Your task to perform on an android device: Add "jbl charge 4" to the cart on ebay.com, then select checkout. Image 0: 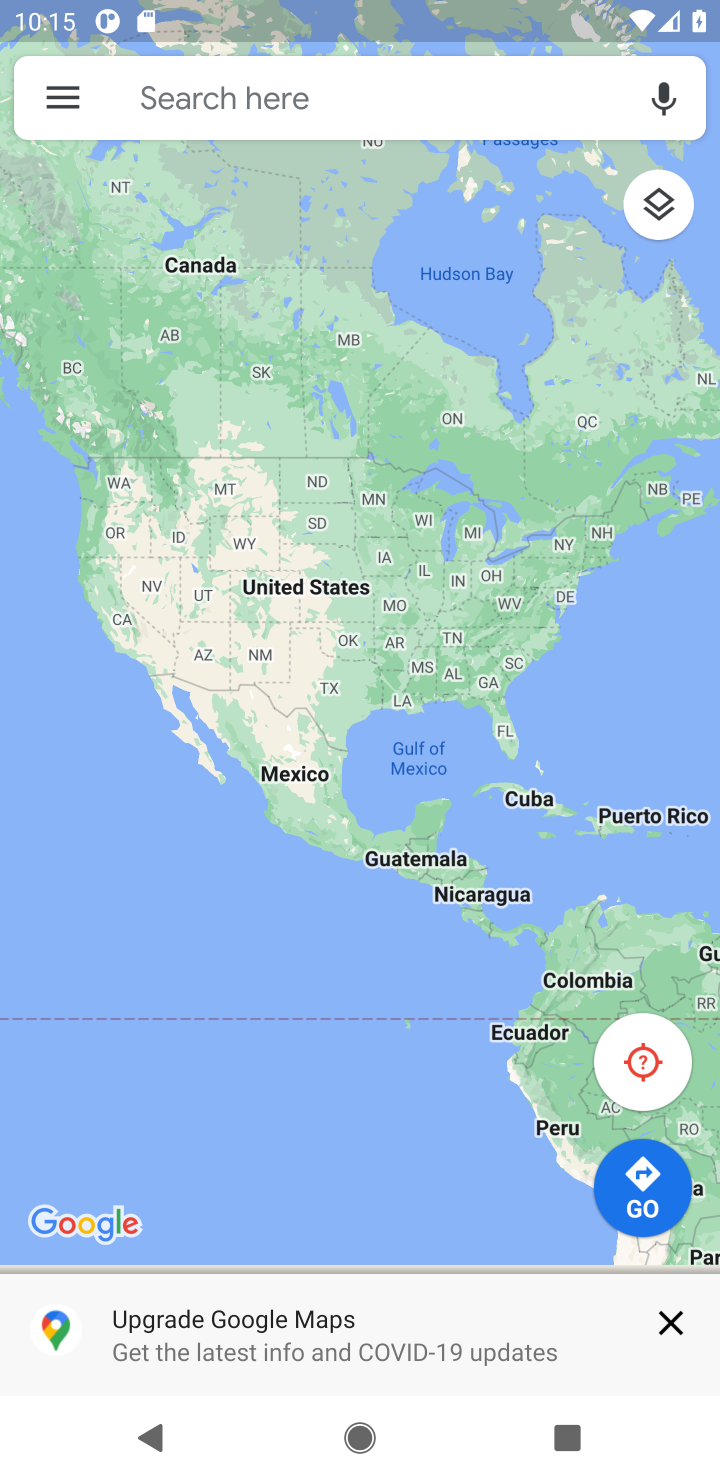
Step 0: press home button
Your task to perform on an android device: Add "jbl charge 4" to the cart on ebay.com, then select checkout. Image 1: 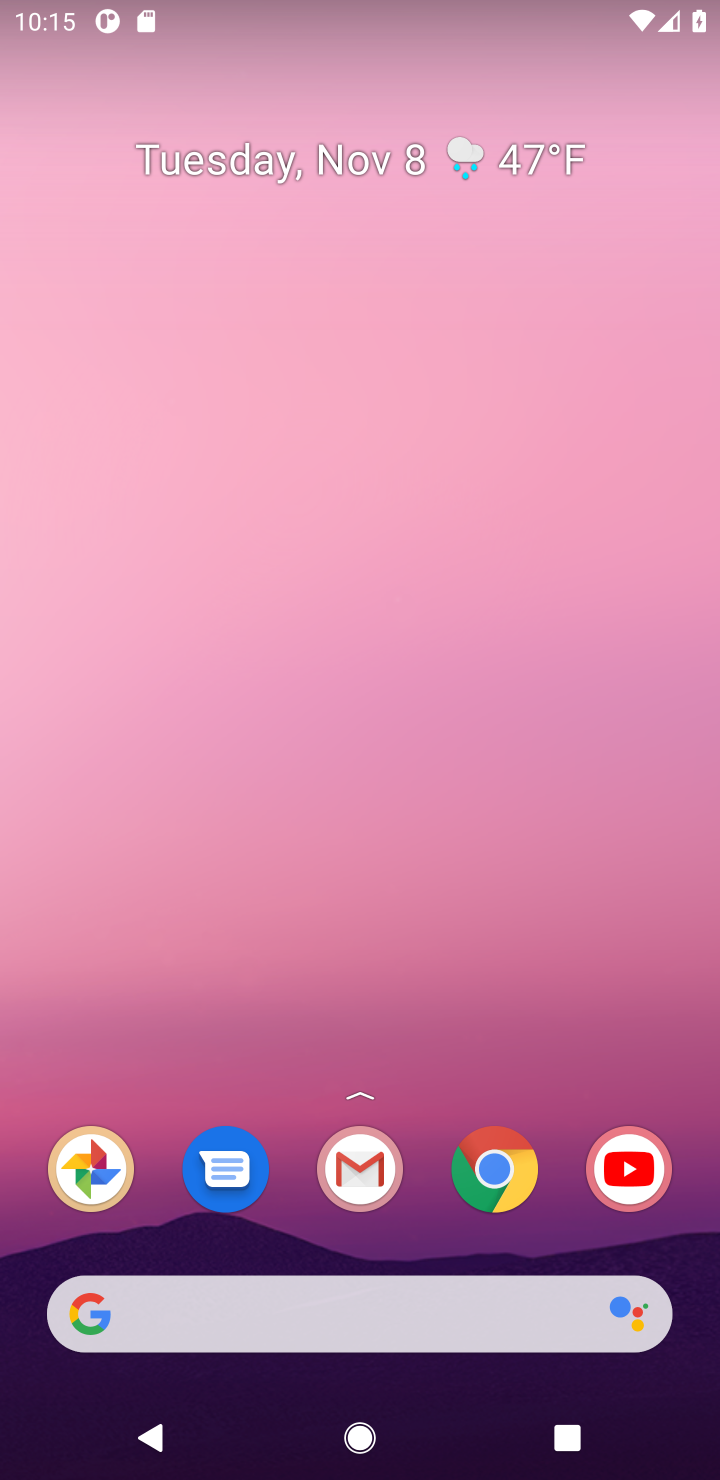
Step 1: click (486, 1164)
Your task to perform on an android device: Add "jbl charge 4" to the cart on ebay.com, then select checkout. Image 2: 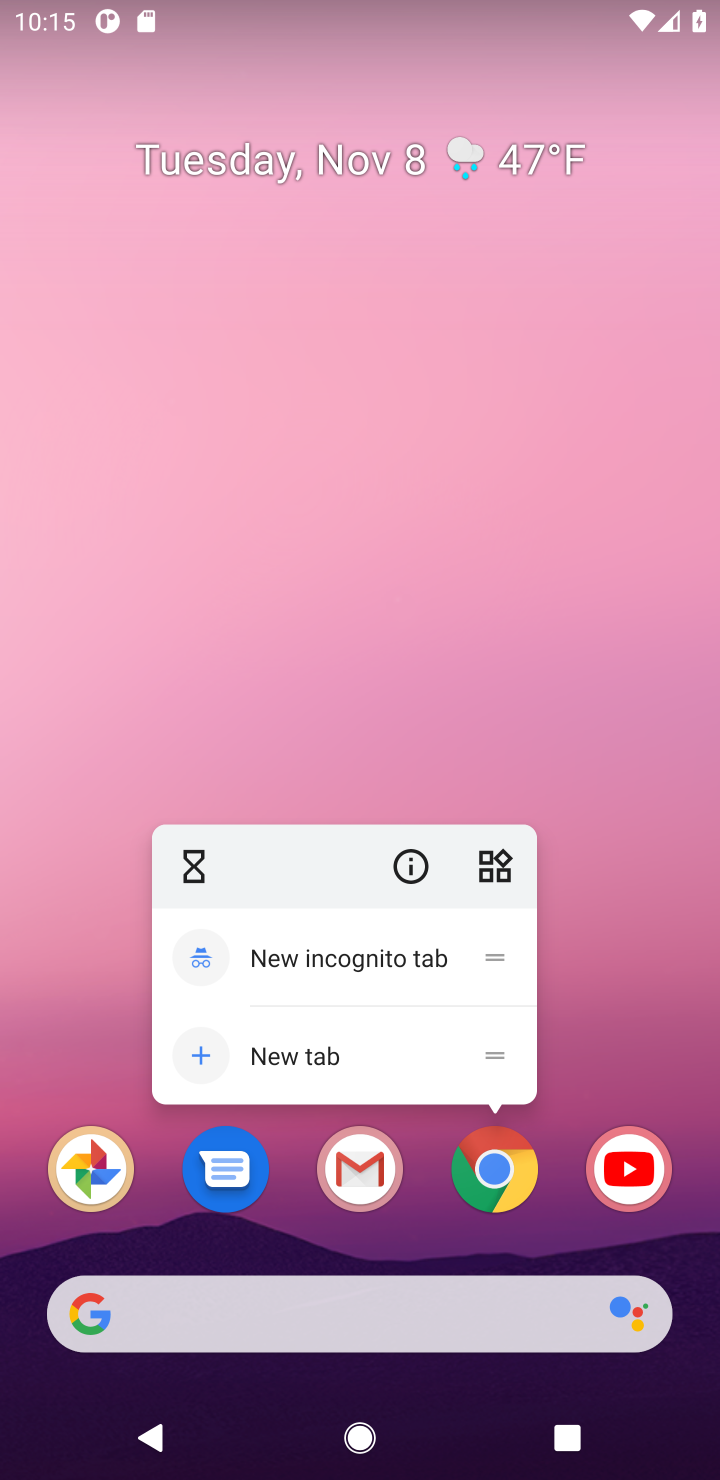
Step 2: click (486, 1164)
Your task to perform on an android device: Add "jbl charge 4" to the cart on ebay.com, then select checkout. Image 3: 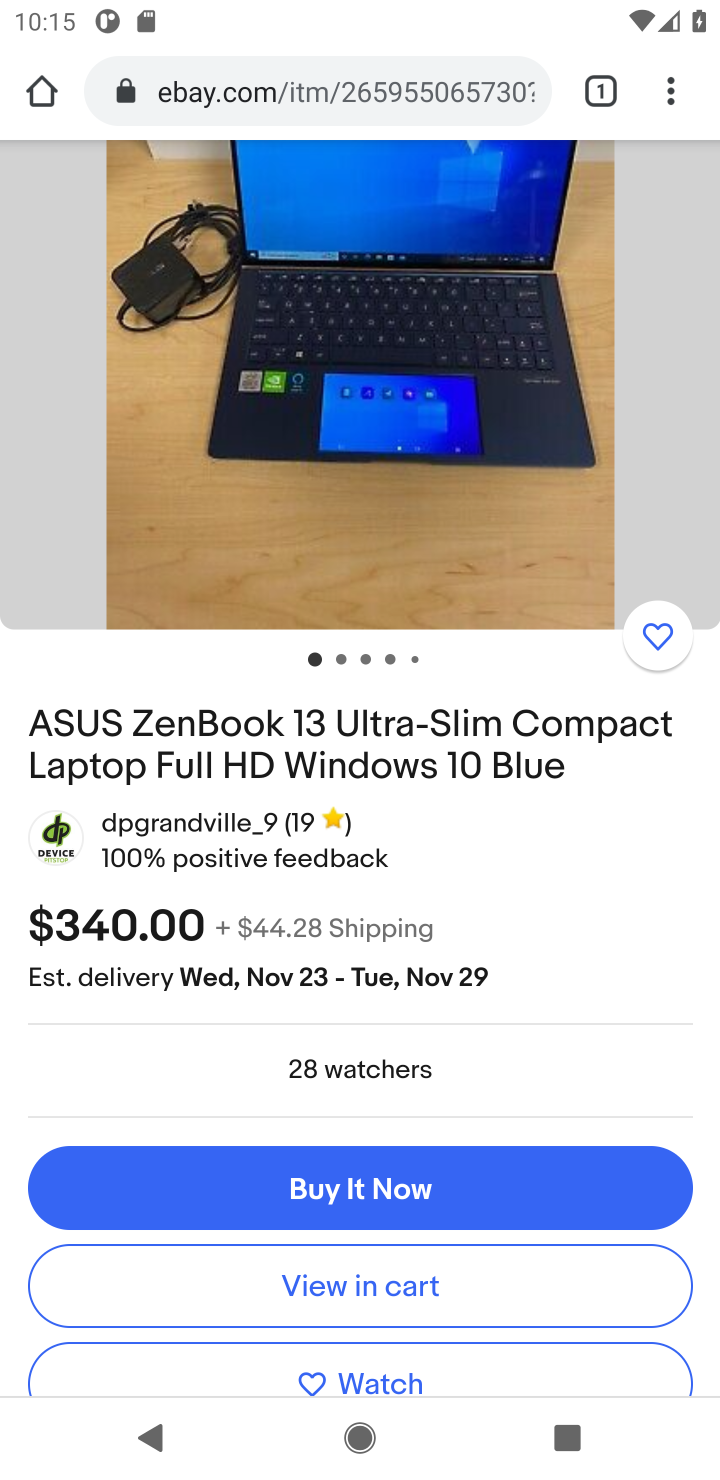
Step 3: drag from (371, 294) to (485, 1113)
Your task to perform on an android device: Add "jbl charge 4" to the cart on ebay.com, then select checkout. Image 4: 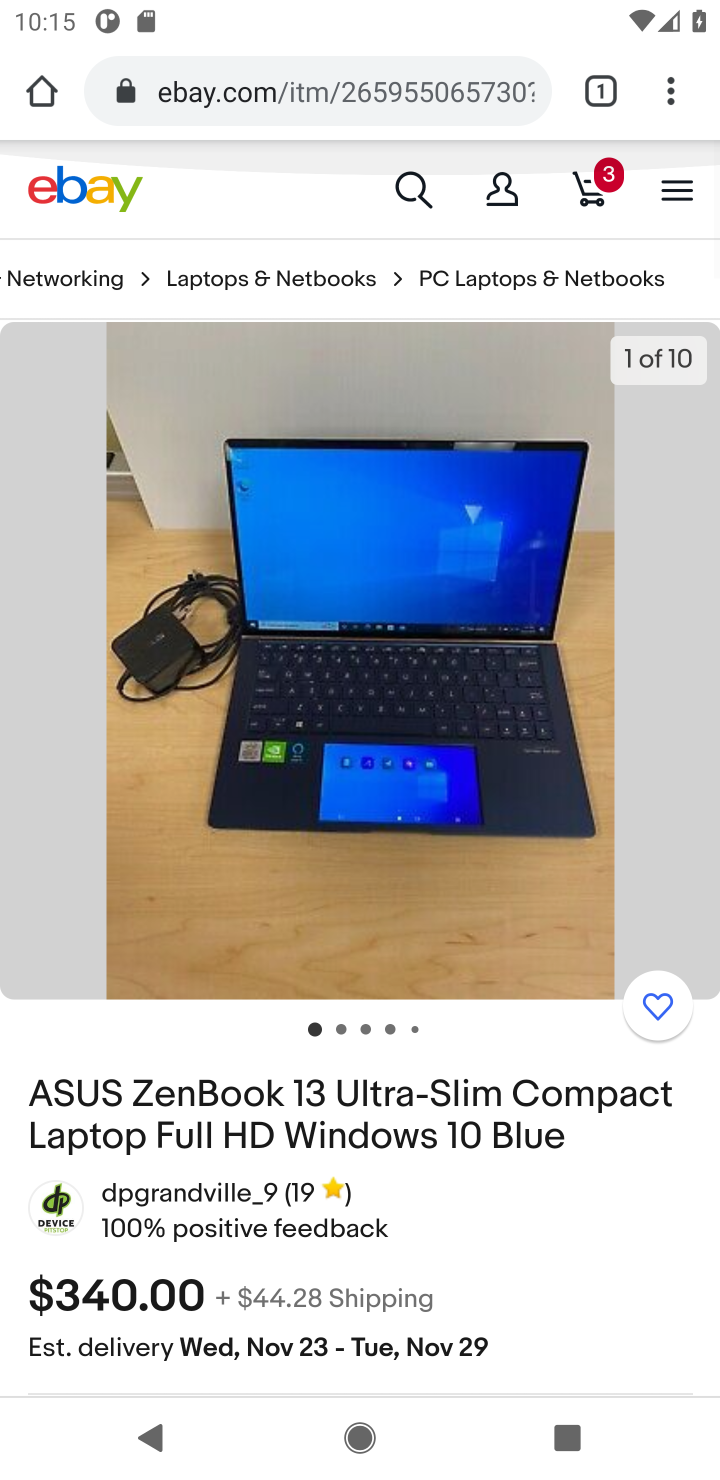
Step 4: press back button
Your task to perform on an android device: Add "jbl charge 4" to the cart on ebay.com, then select checkout. Image 5: 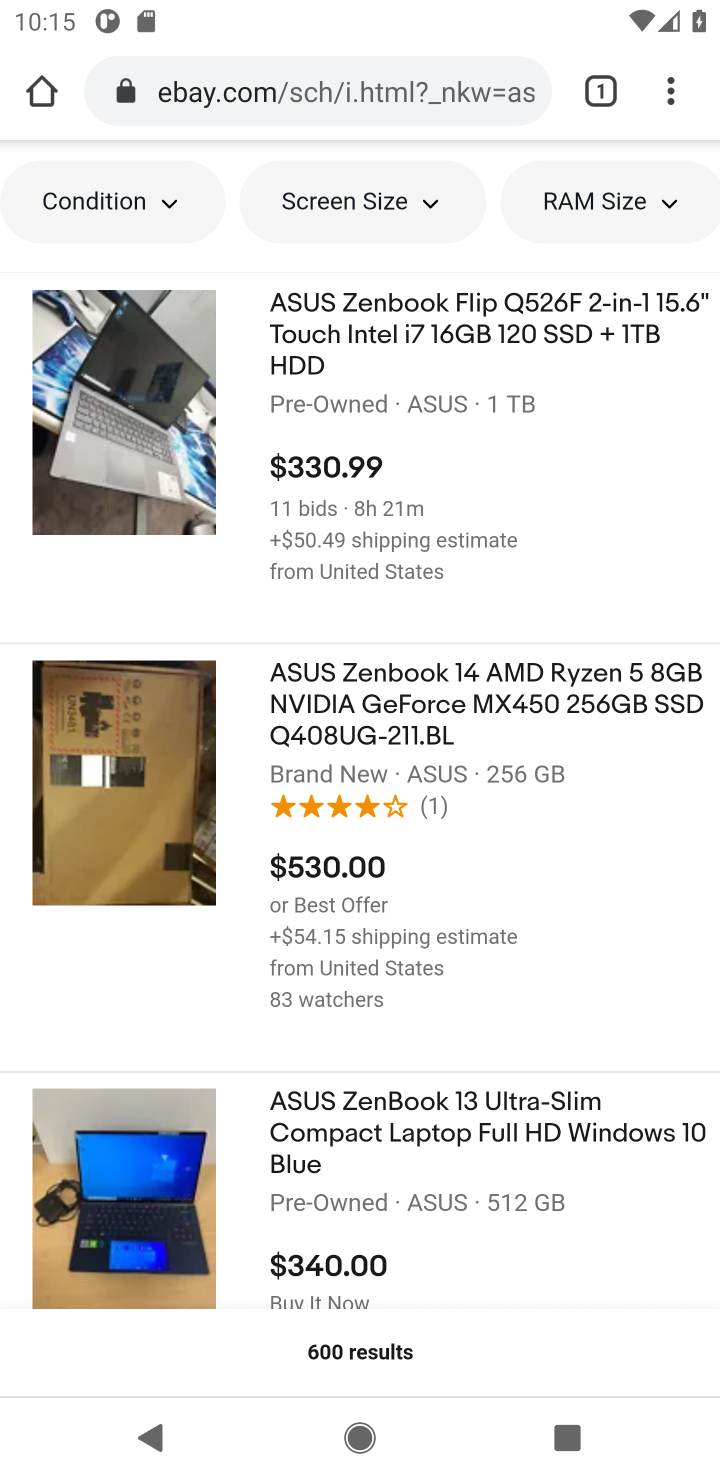
Step 5: drag from (414, 377) to (703, 1041)
Your task to perform on an android device: Add "jbl charge 4" to the cart on ebay.com, then select checkout. Image 6: 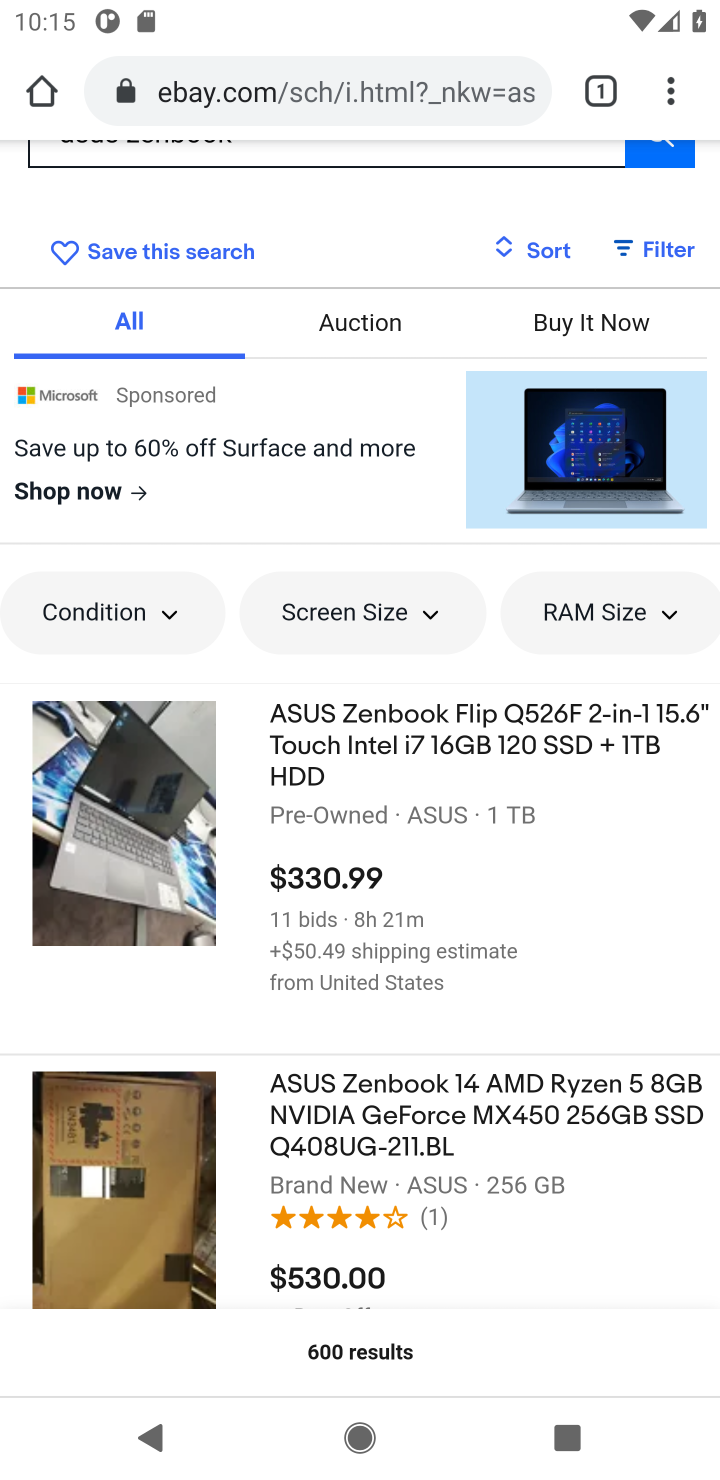
Step 6: drag from (518, 416) to (692, 1387)
Your task to perform on an android device: Add "jbl charge 4" to the cart on ebay.com, then select checkout. Image 7: 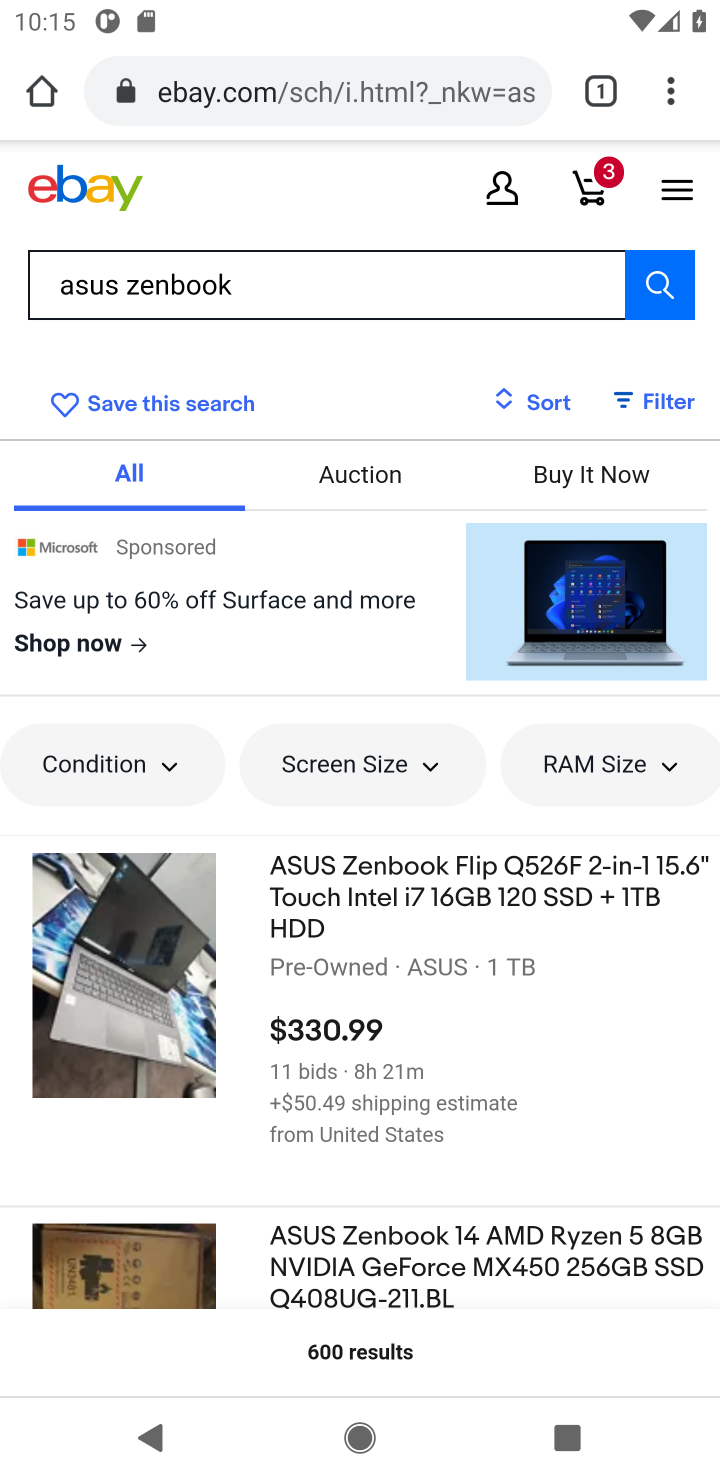
Step 7: click (390, 292)
Your task to perform on an android device: Add "jbl charge 4" to the cart on ebay.com, then select checkout. Image 8: 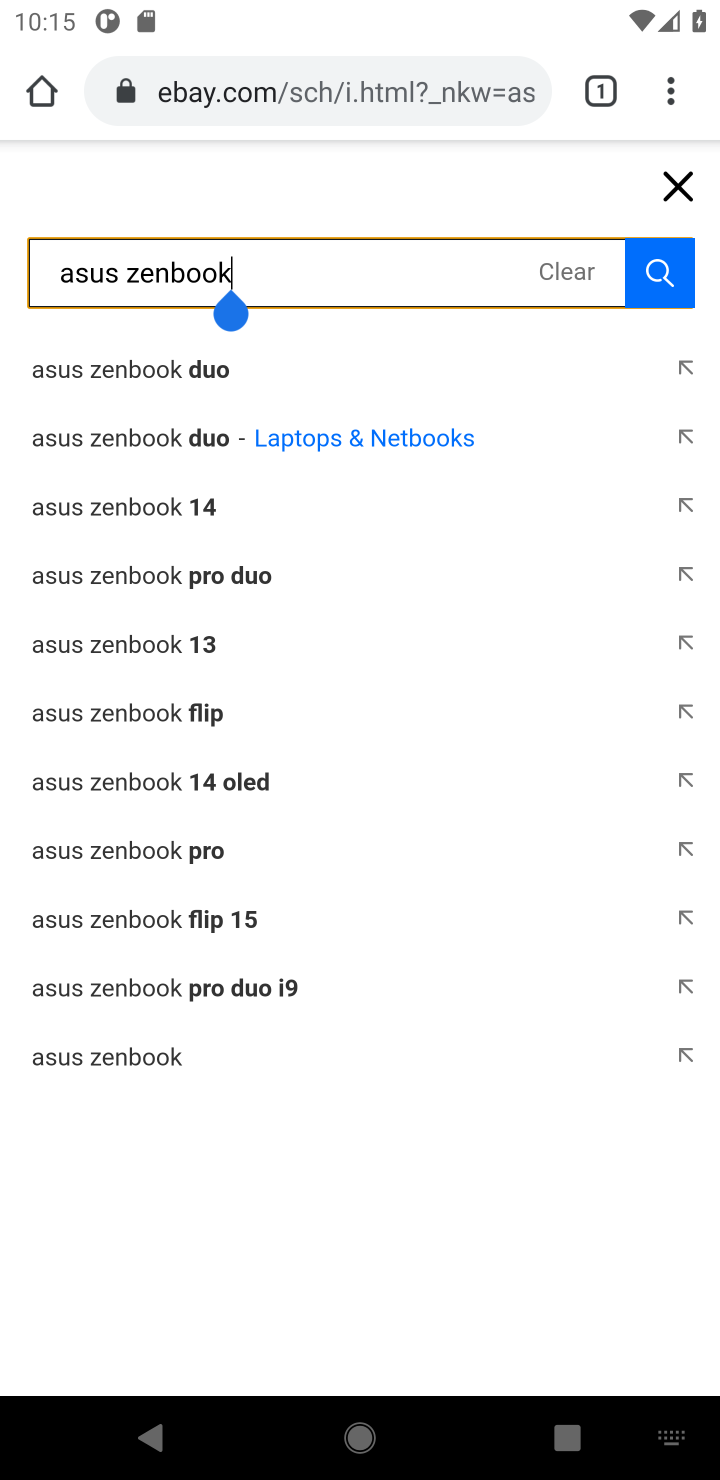
Step 8: click (576, 270)
Your task to perform on an android device: Add "jbl charge 4" to the cart on ebay.com, then select checkout. Image 9: 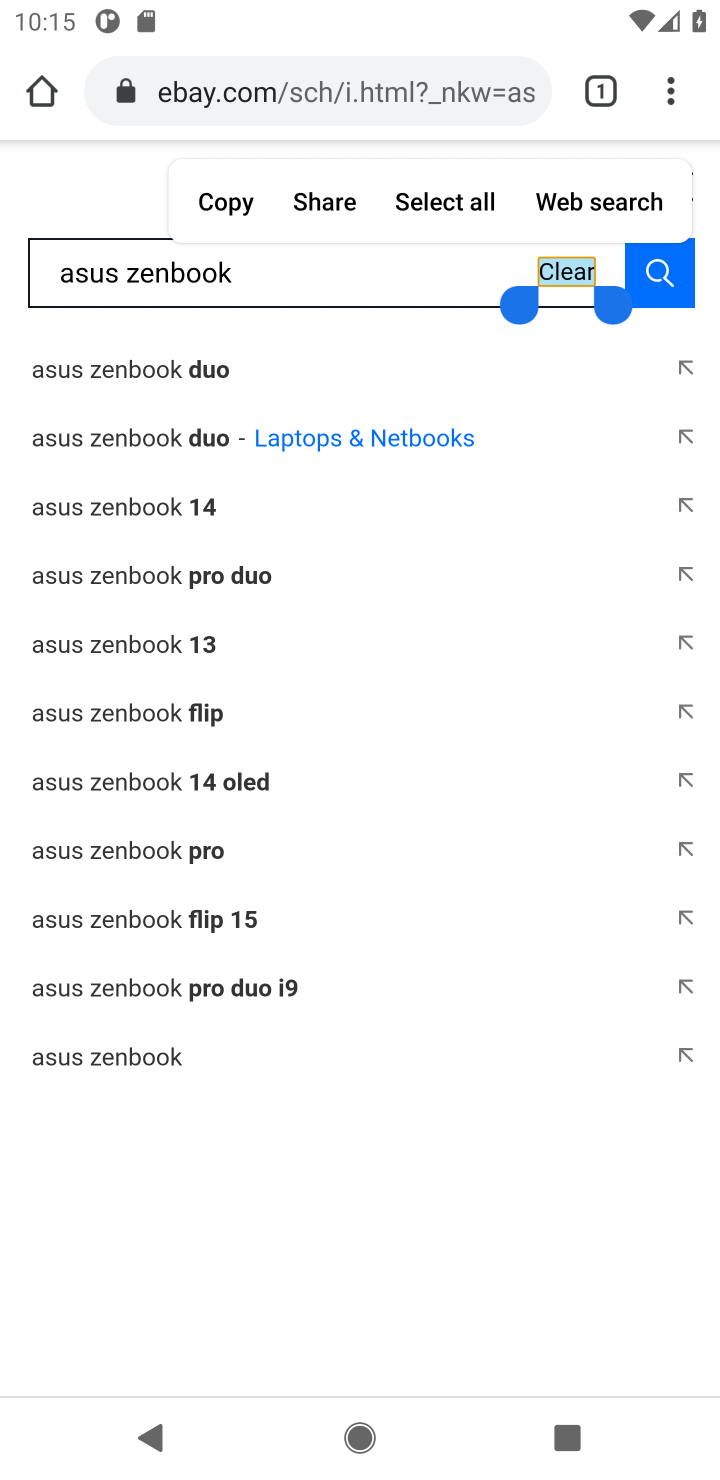
Step 9: click (320, 276)
Your task to perform on an android device: Add "jbl charge 4" to the cart on ebay.com, then select checkout. Image 10: 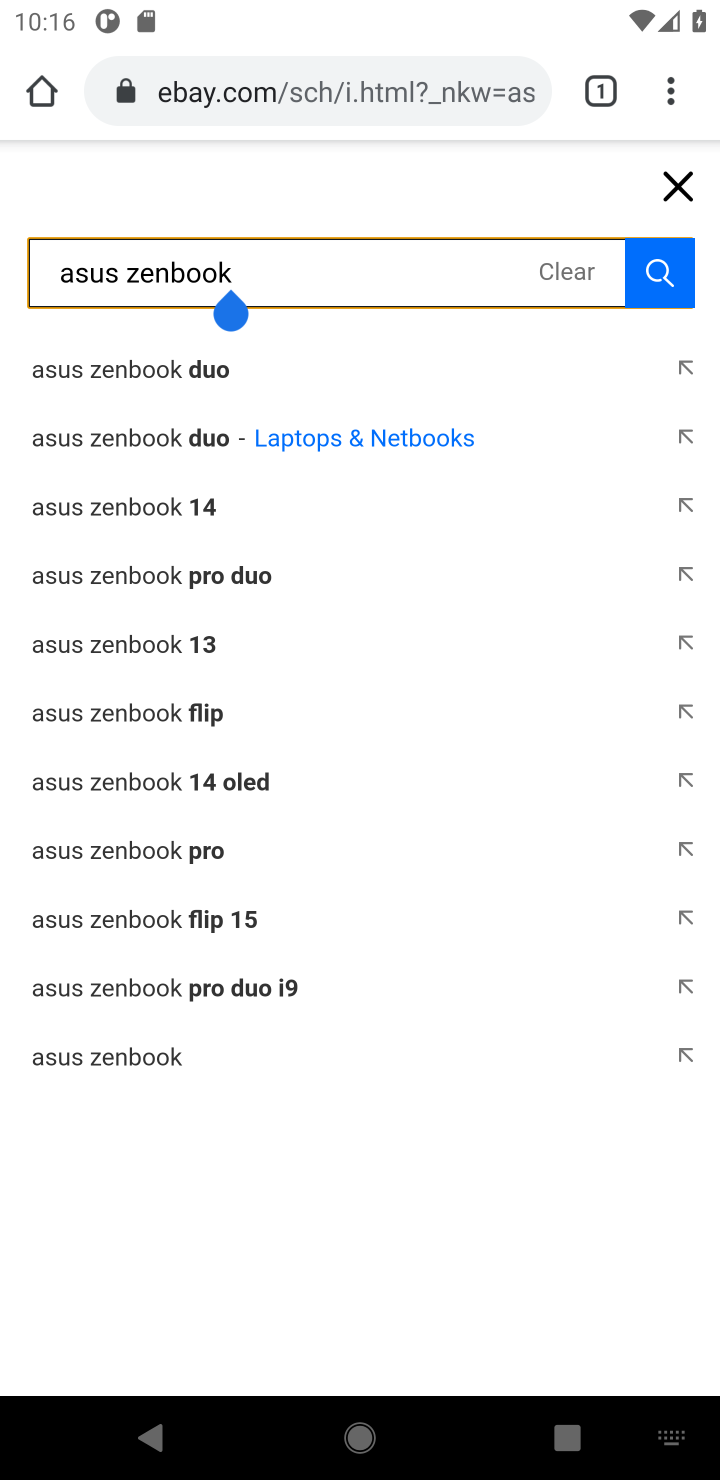
Step 10: click (696, 183)
Your task to perform on an android device: Add "jbl charge 4" to the cart on ebay.com, then select checkout. Image 11: 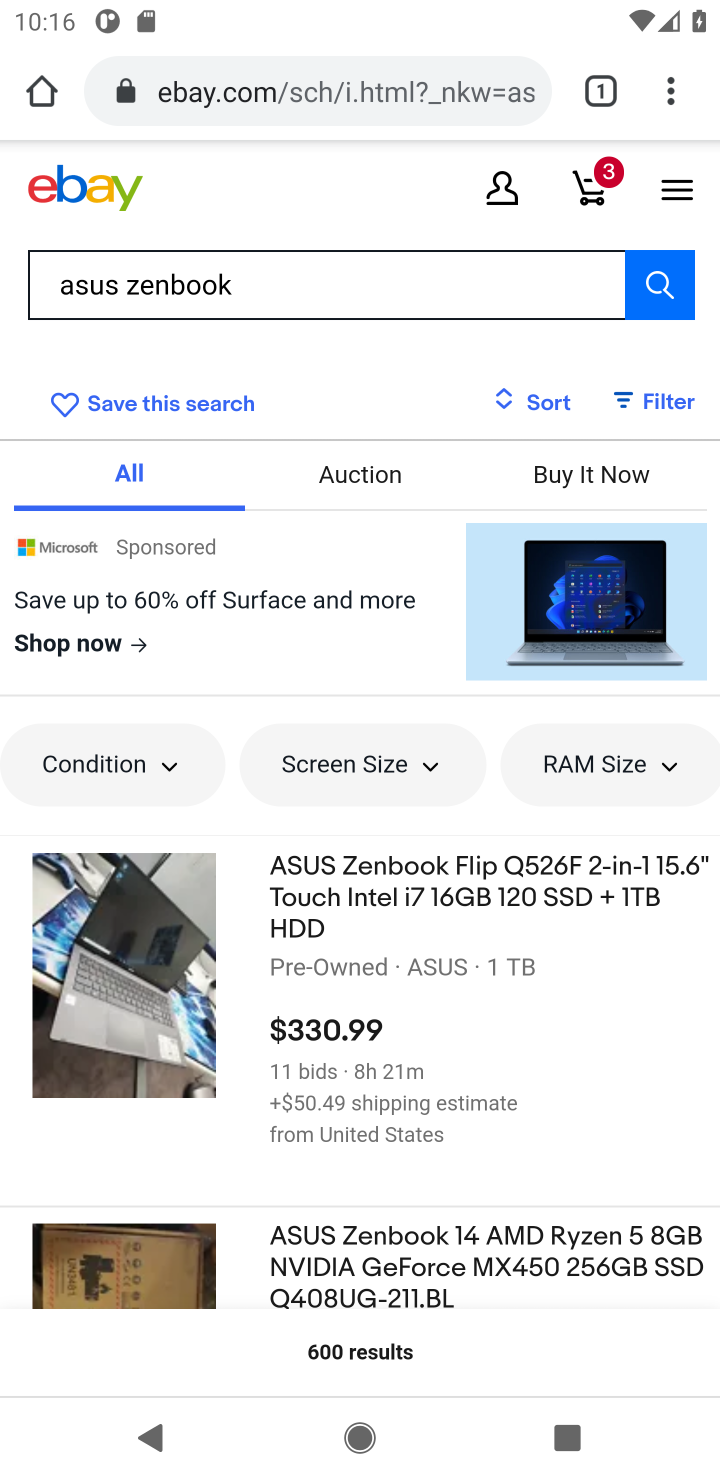
Step 11: click (452, 258)
Your task to perform on an android device: Add "jbl charge 4" to the cart on ebay.com, then select checkout. Image 12: 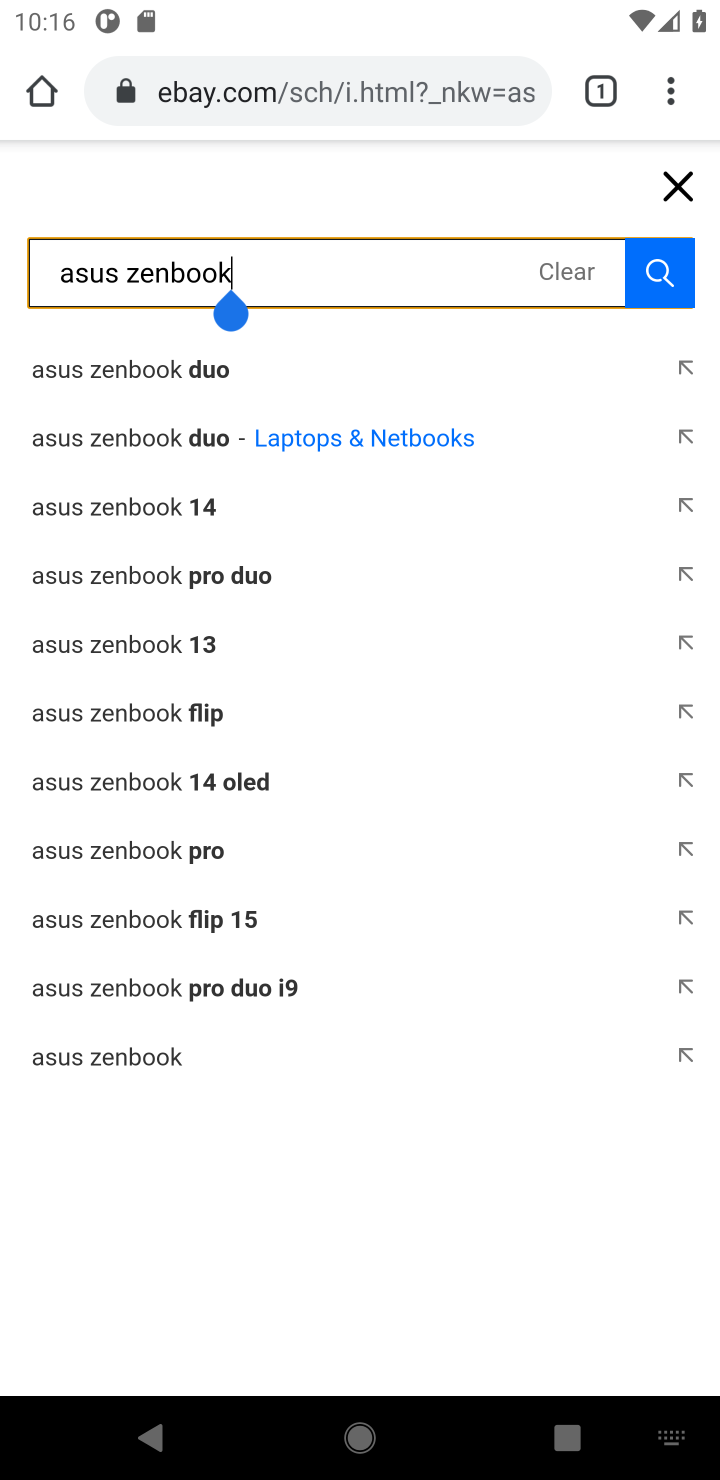
Step 12: click (151, 276)
Your task to perform on an android device: Add "jbl charge 4" to the cart on ebay.com, then select checkout. Image 13: 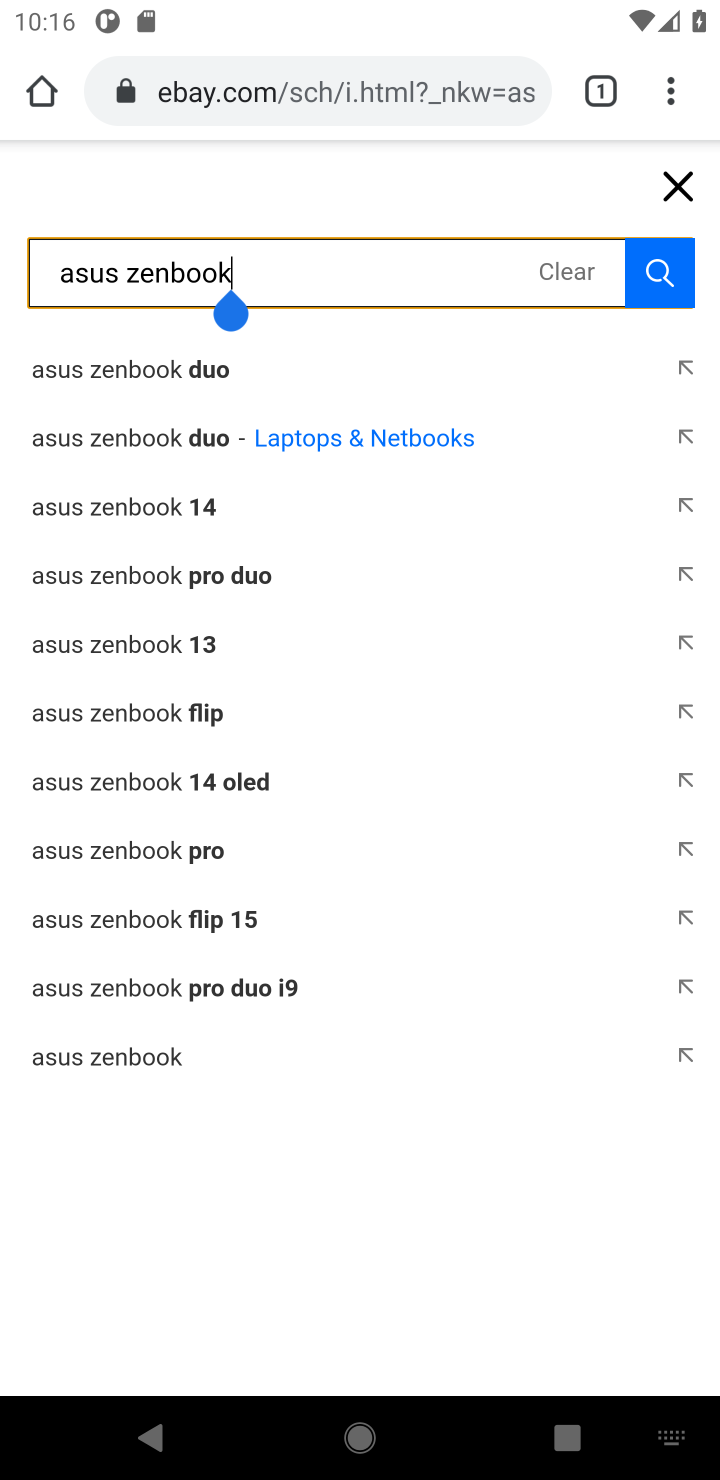
Step 13: click (151, 276)
Your task to perform on an android device: Add "jbl charge 4" to the cart on ebay.com, then select checkout. Image 14: 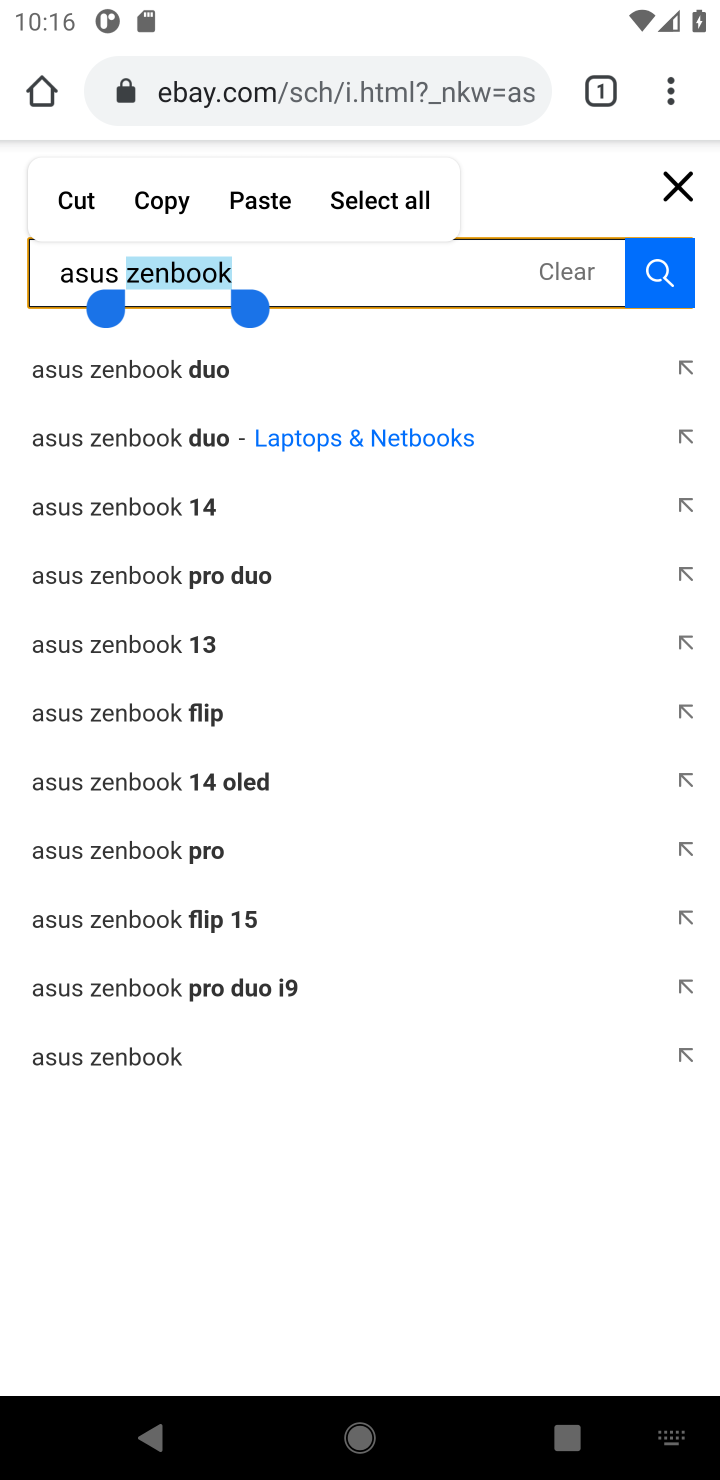
Step 14: click (674, 179)
Your task to perform on an android device: Add "jbl charge 4" to the cart on ebay.com, then select checkout. Image 15: 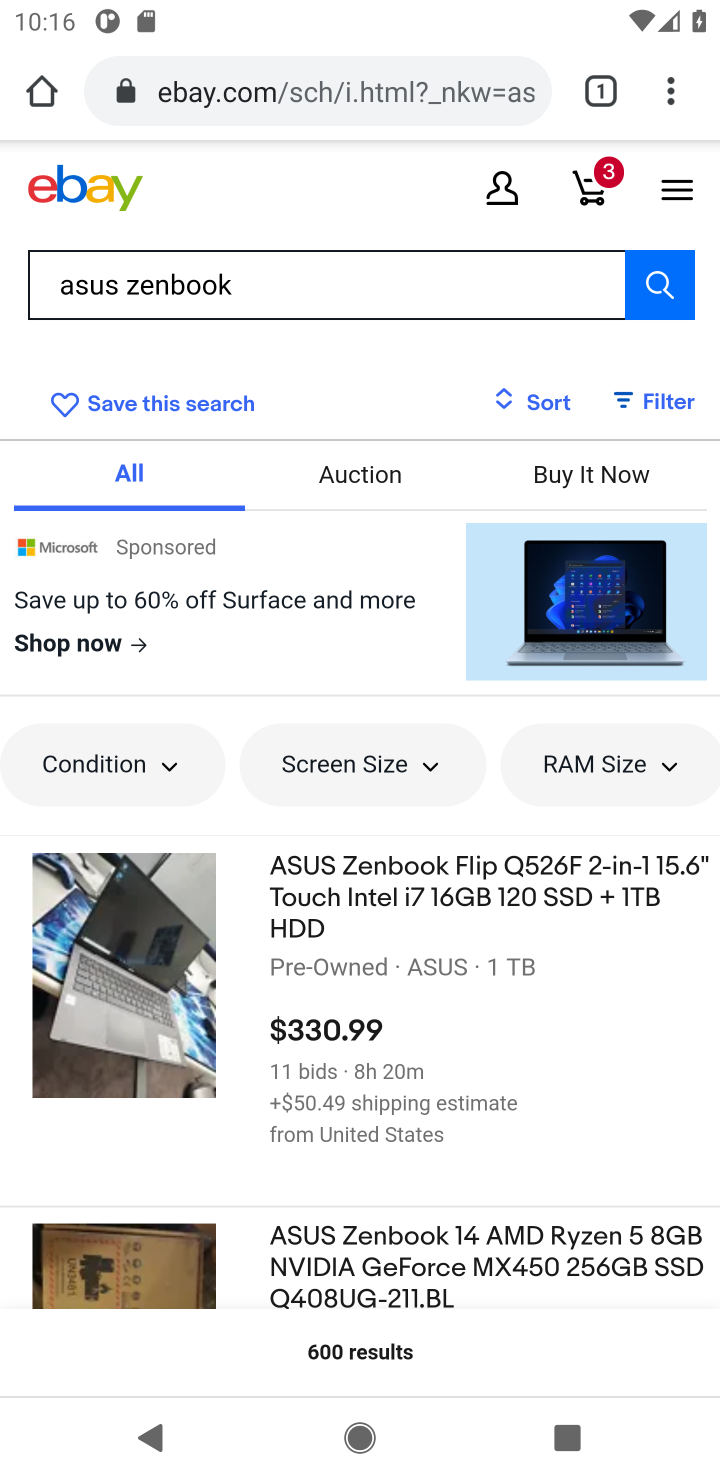
Step 15: press home button
Your task to perform on an android device: Add "jbl charge 4" to the cart on ebay.com, then select checkout. Image 16: 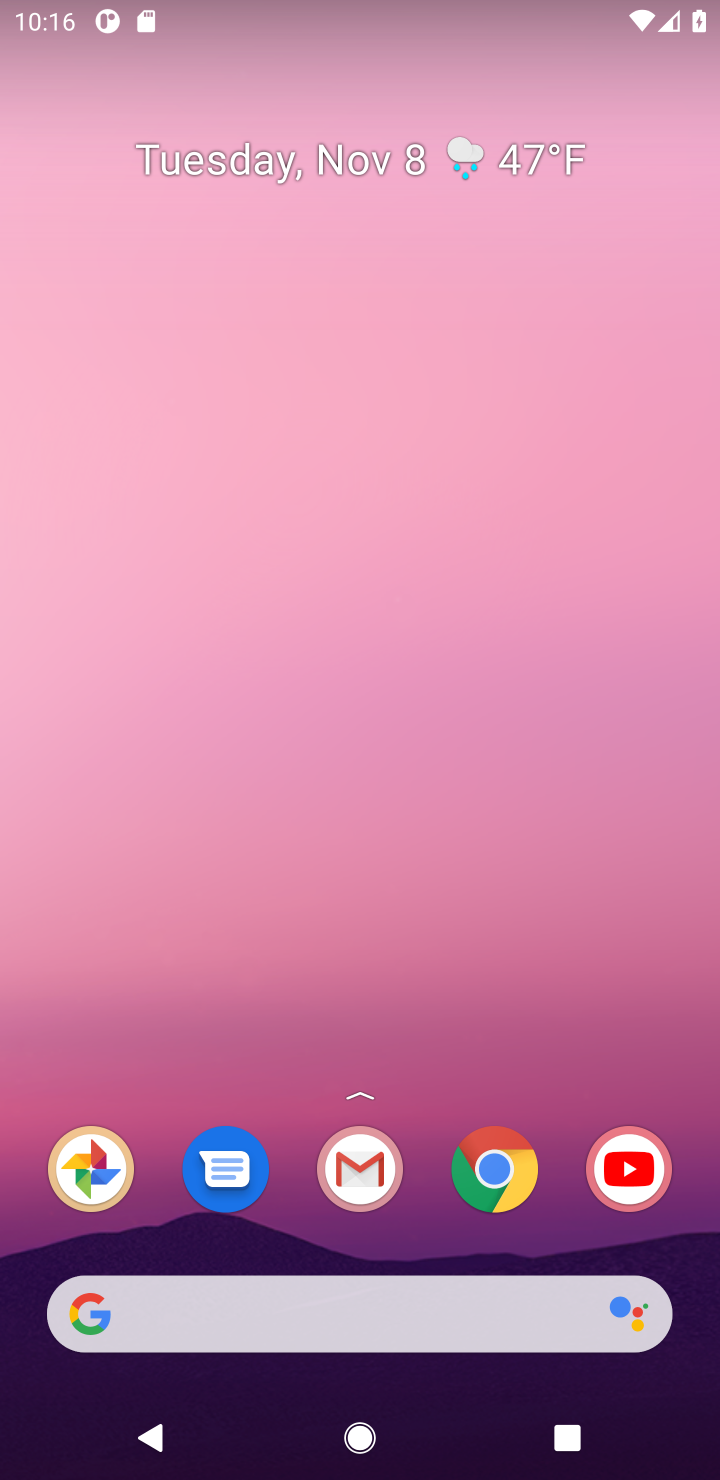
Step 16: click (495, 1141)
Your task to perform on an android device: Add "jbl charge 4" to the cart on ebay.com, then select checkout. Image 17: 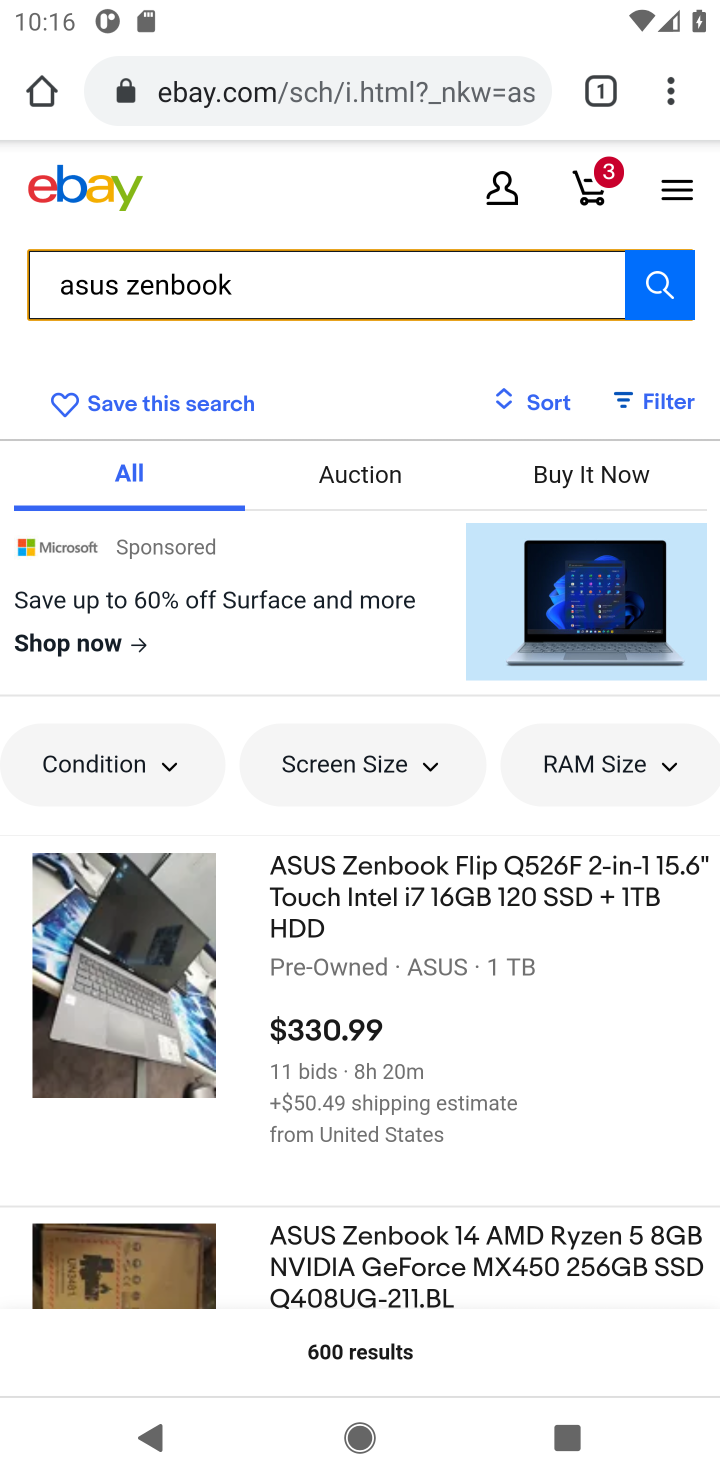
Step 17: click (92, 290)
Your task to perform on an android device: Add "jbl charge 4" to the cart on ebay.com, then select checkout. Image 18: 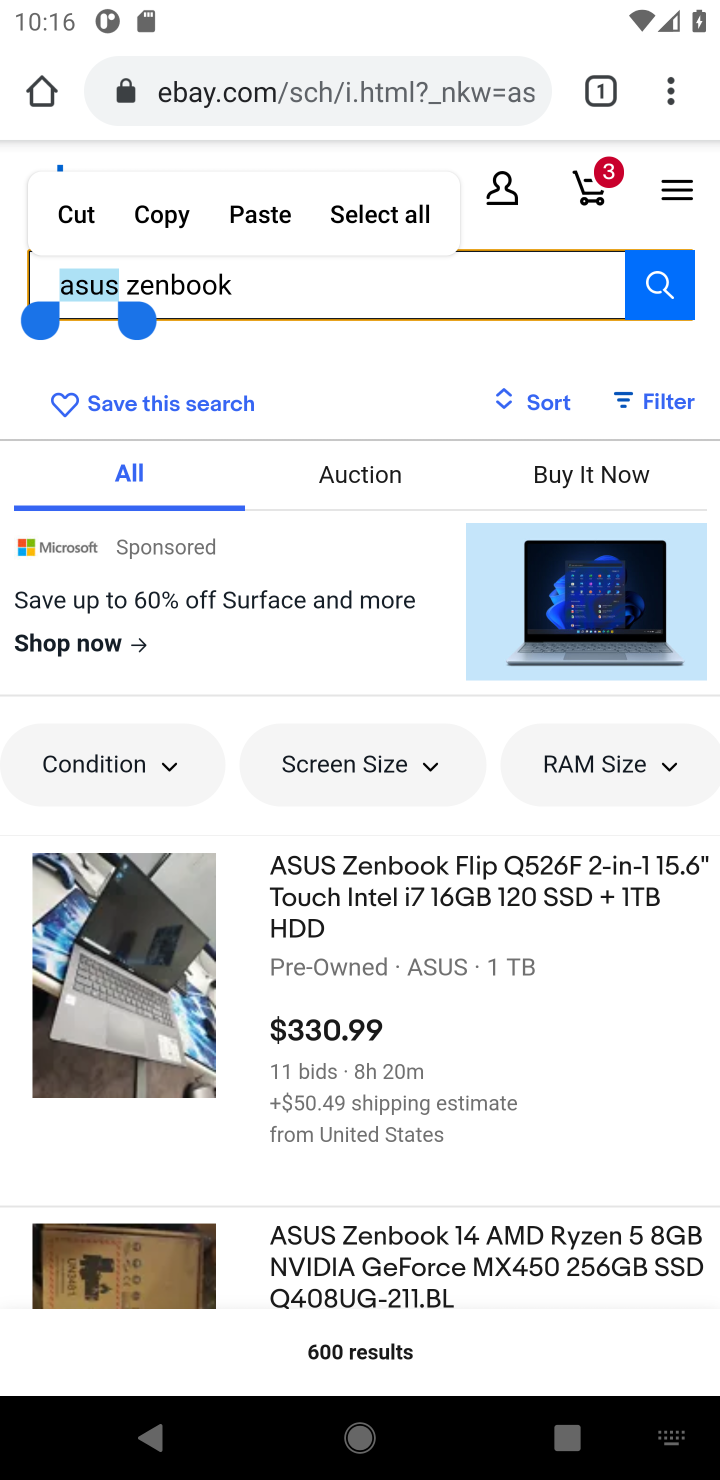
Step 18: drag from (228, 289) to (47, 289)
Your task to perform on an android device: Add "jbl charge 4" to the cart on ebay.com, then select checkout. Image 19: 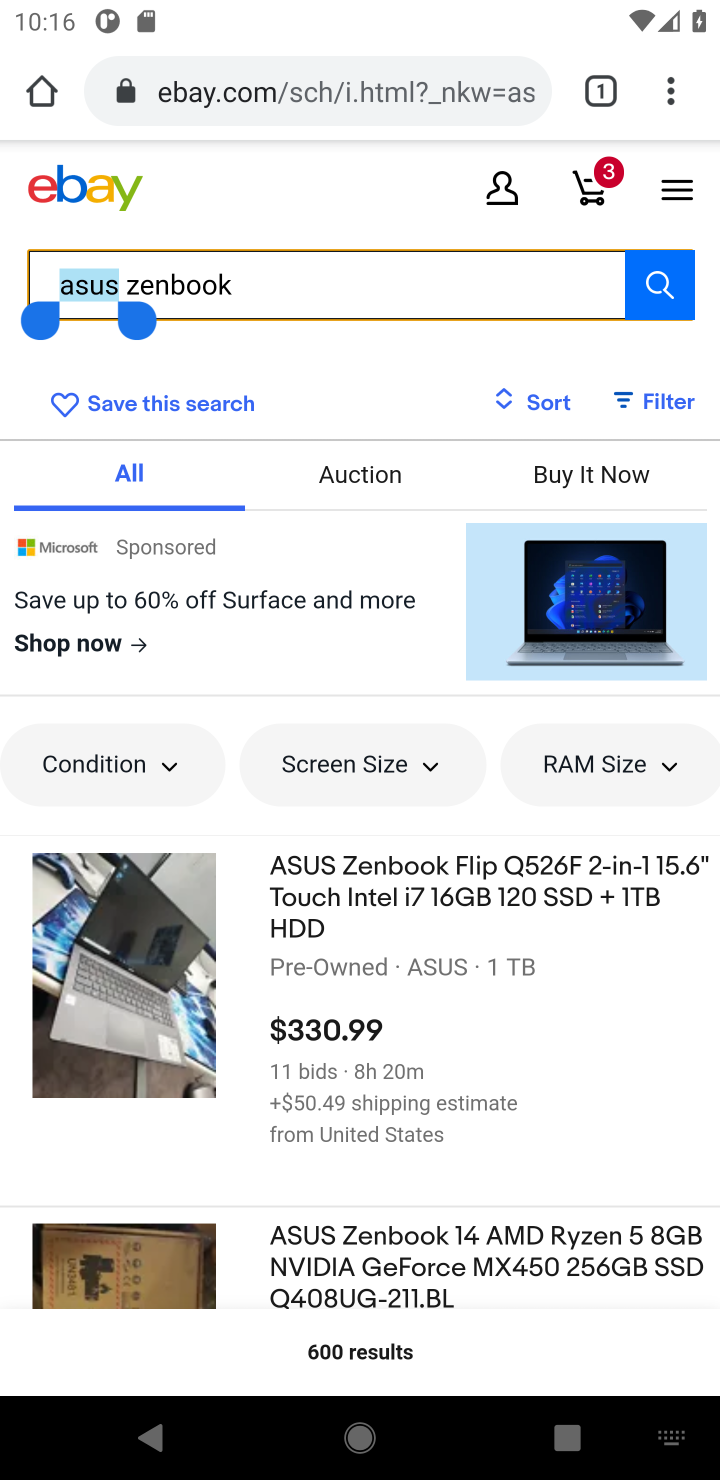
Step 19: click (177, 281)
Your task to perform on an android device: Add "jbl charge 4" to the cart on ebay.com, then select checkout. Image 20: 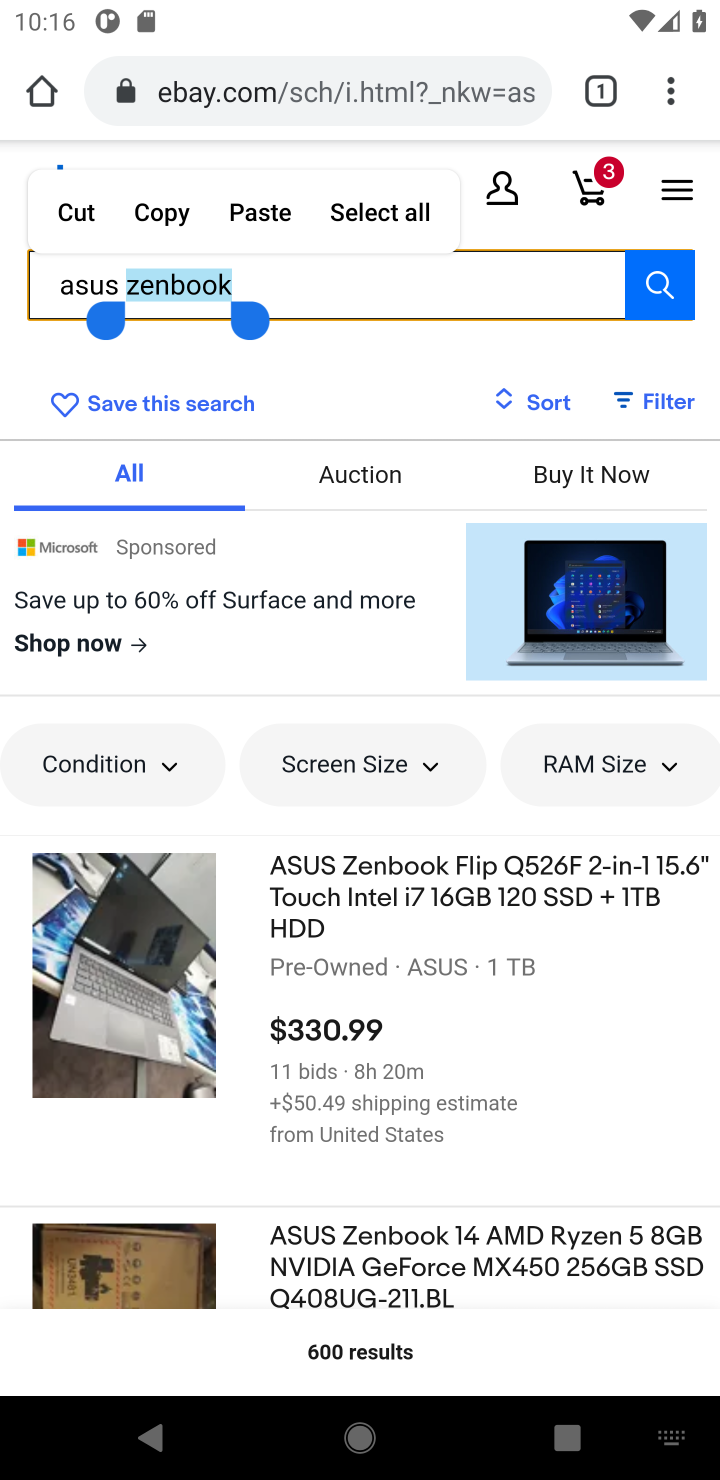
Step 20: drag from (56, 278) to (235, 284)
Your task to perform on an android device: Add "jbl charge 4" to the cart on ebay.com, then select checkout. Image 21: 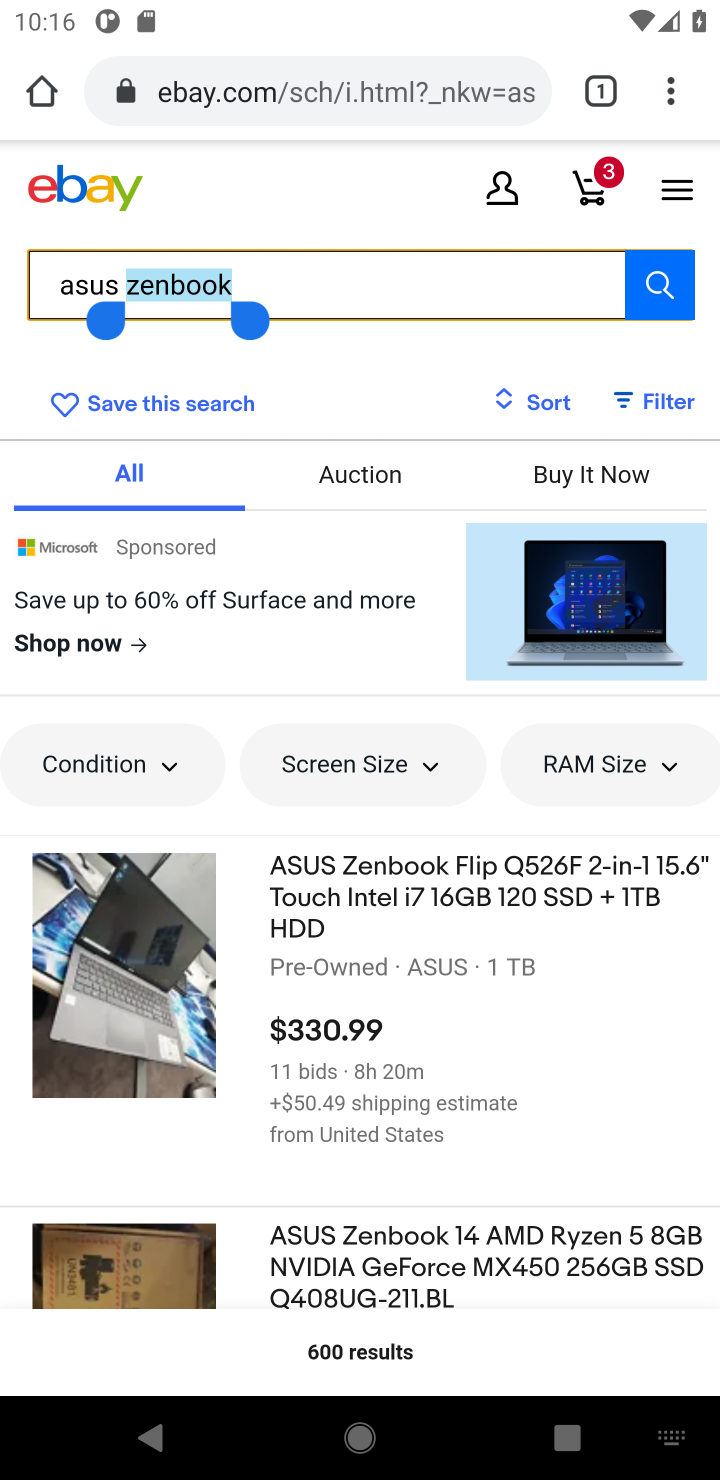
Step 21: click (276, 283)
Your task to perform on an android device: Add "jbl charge 4" to the cart on ebay.com, then select checkout. Image 22: 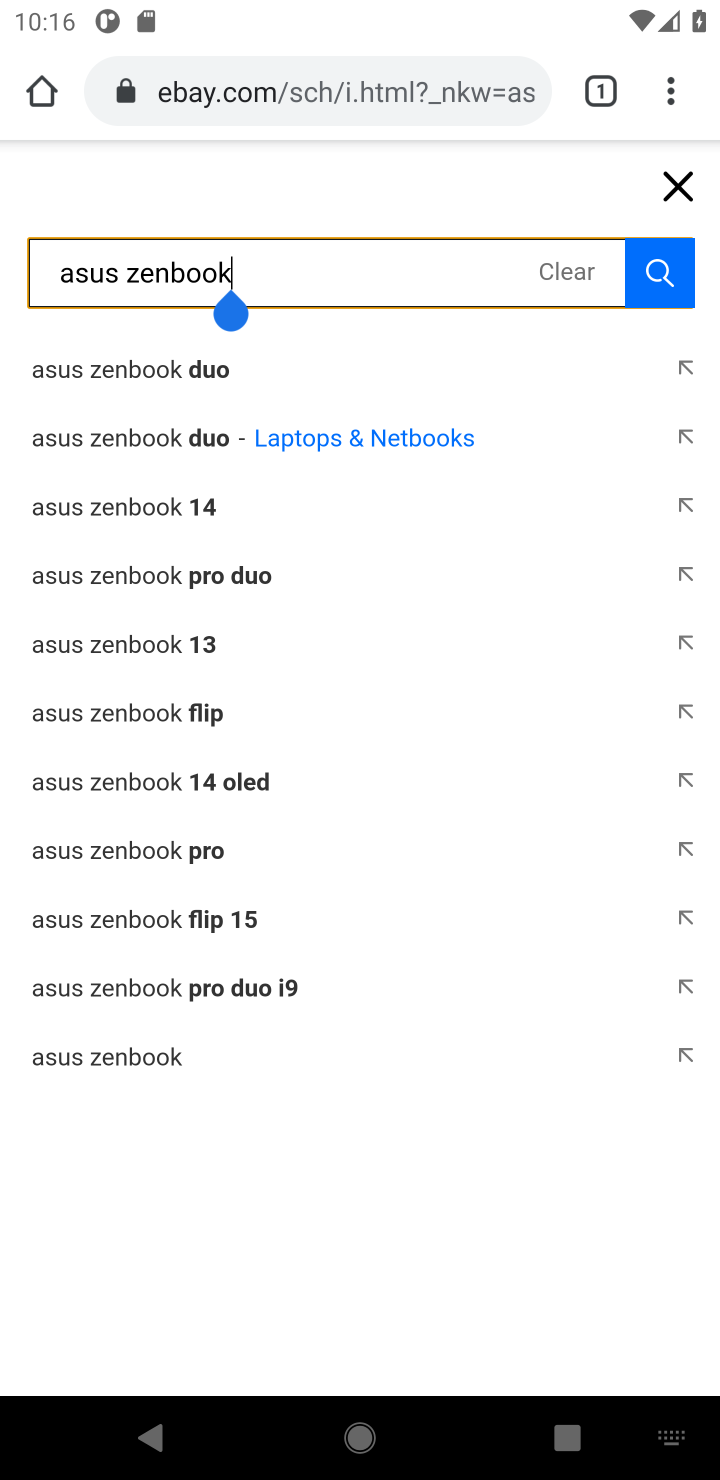
Step 22: drag from (66, 277) to (193, 281)
Your task to perform on an android device: Add "jbl charge 4" to the cart on ebay.com, then select checkout. Image 23: 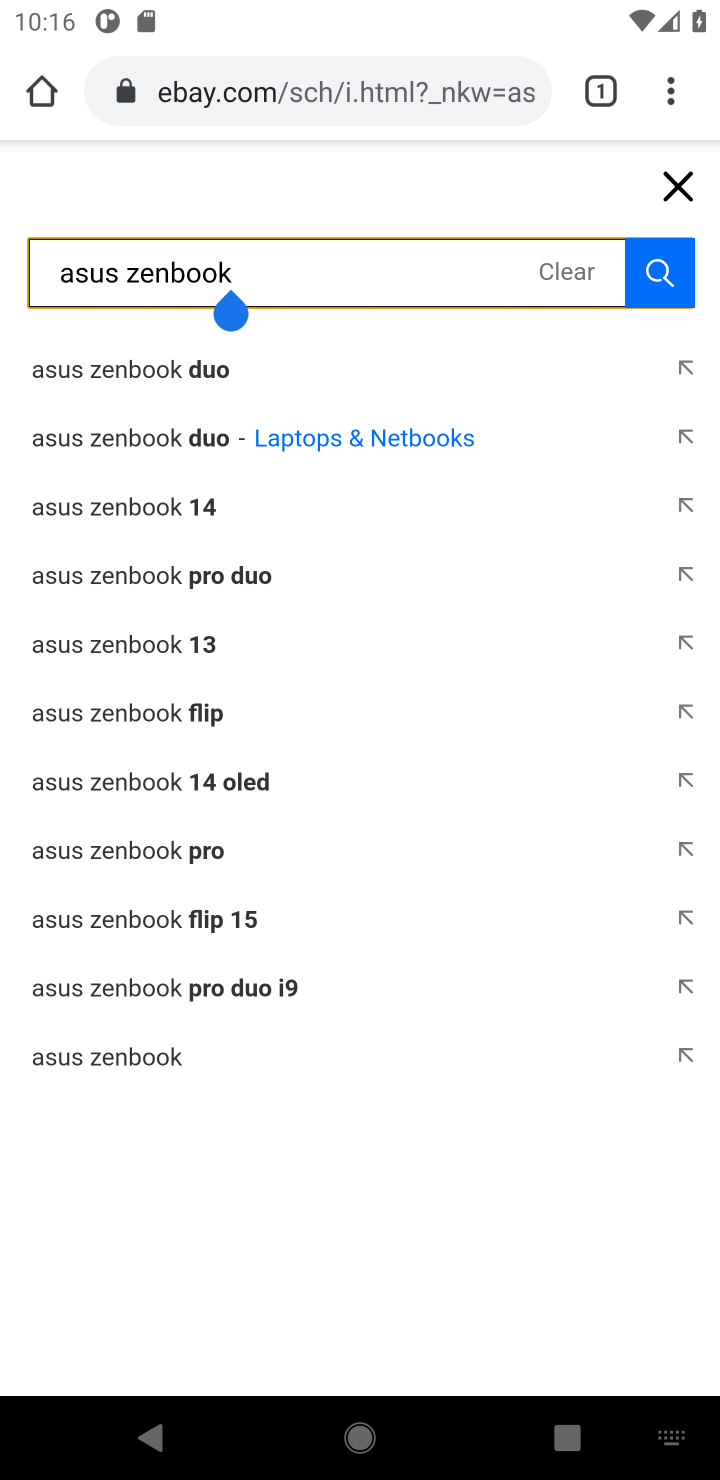
Step 23: click (162, 273)
Your task to perform on an android device: Add "jbl charge 4" to the cart on ebay.com, then select checkout. Image 24: 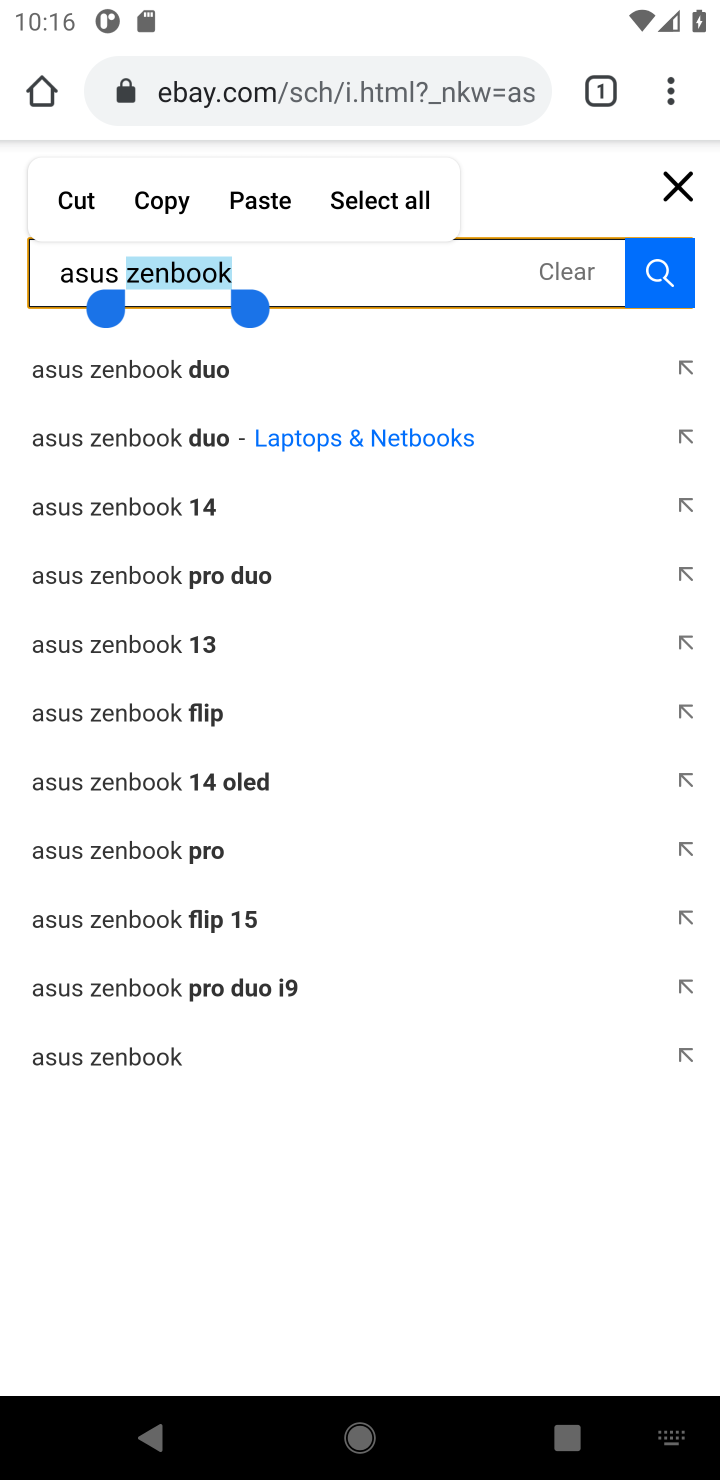
Step 24: type "jbl charge 4"
Your task to perform on an android device: Add "jbl charge 4" to the cart on ebay.com, then select checkout. Image 25: 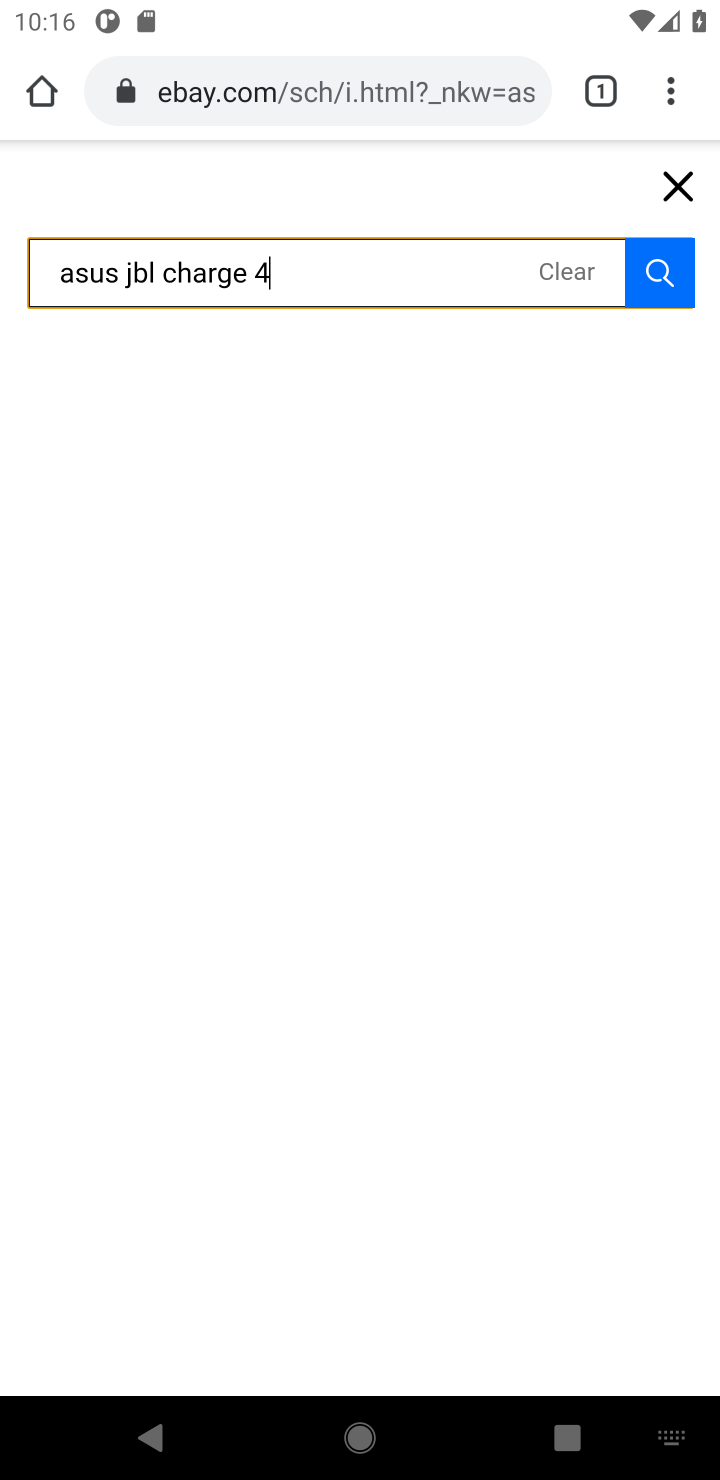
Step 25: press enter
Your task to perform on an android device: Add "jbl charge 4" to the cart on ebay.com, then select checkout. Image 26: 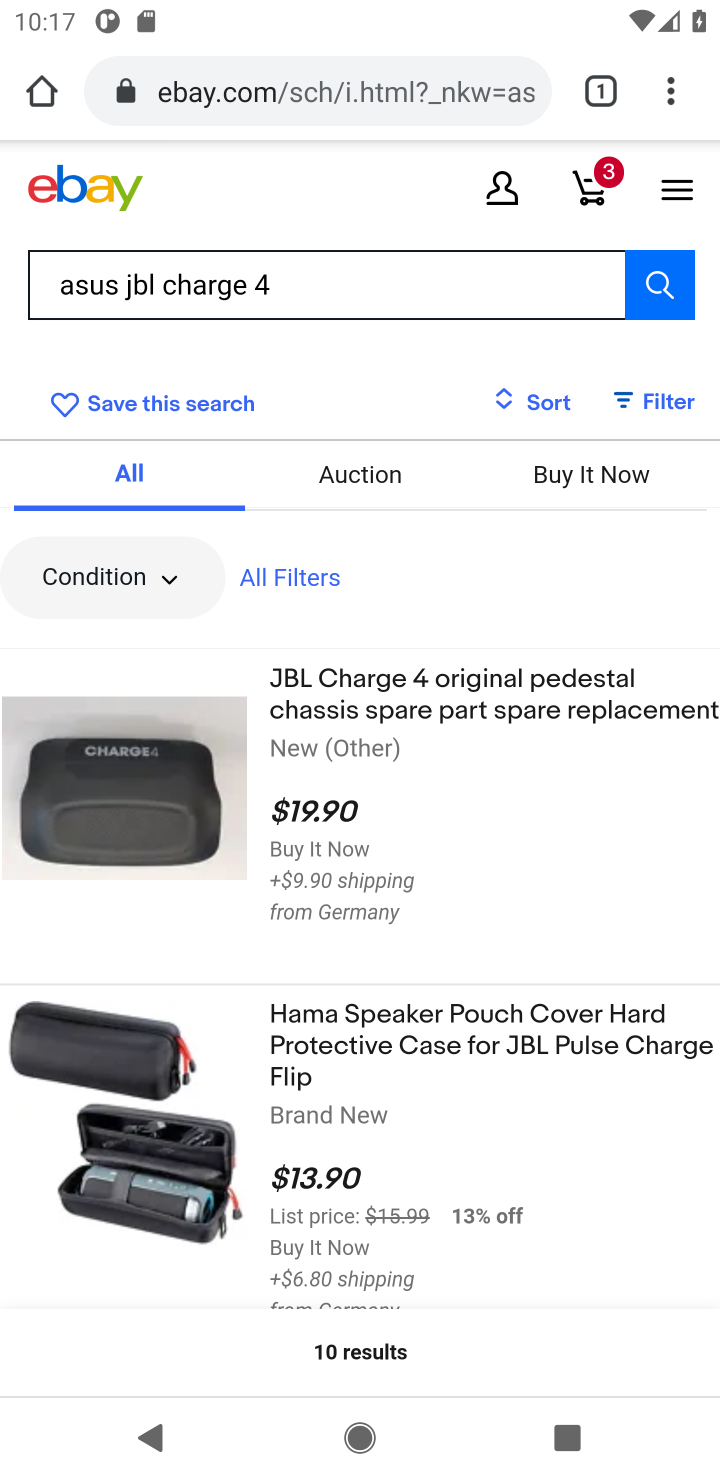
Step 26: click (86, 803)
Your task to perform on an android device: Add "jbl charge 4" to the cart on ebay.com, then select checkout. Image 27: 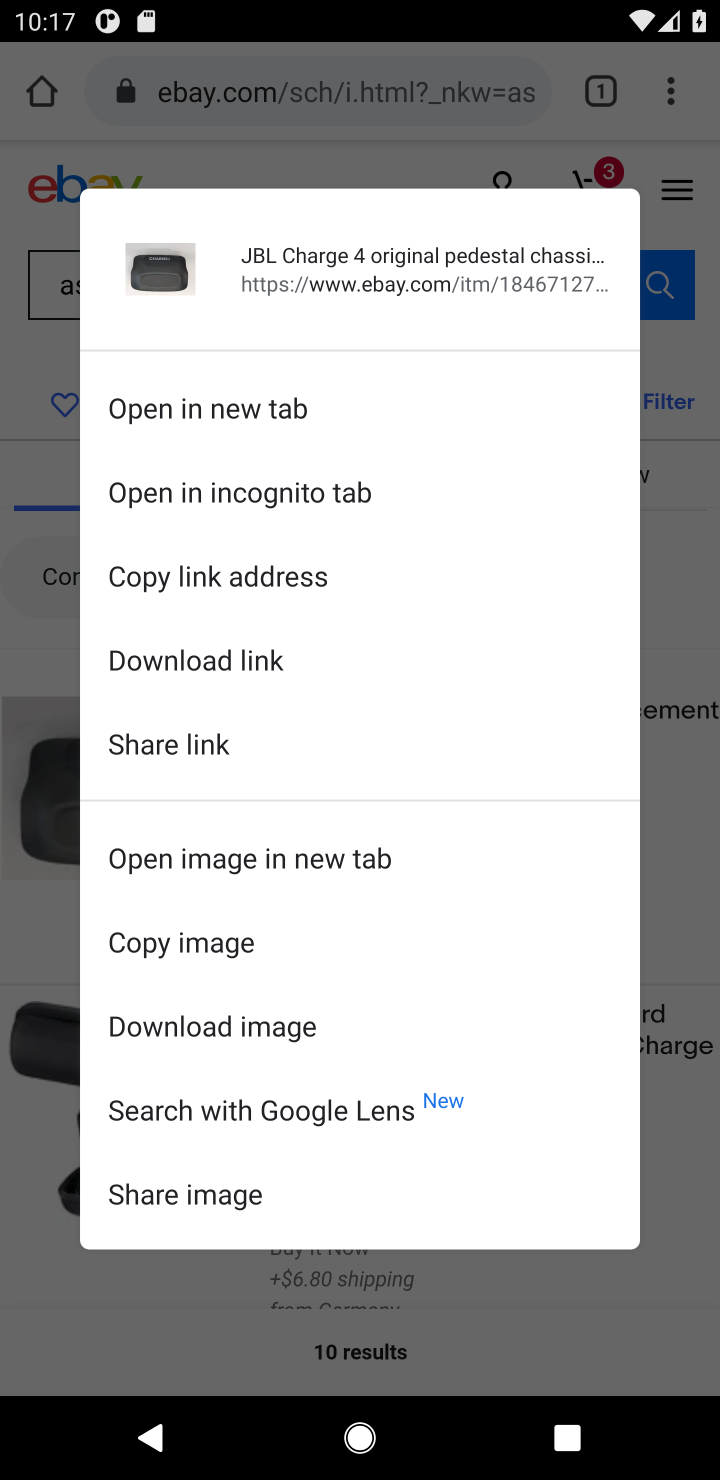
Step 27: click (700, 775)
Your task to perform on an android device: Add "jbl charge 4" to the cart on ebay.com, then select checkout. Image 28: 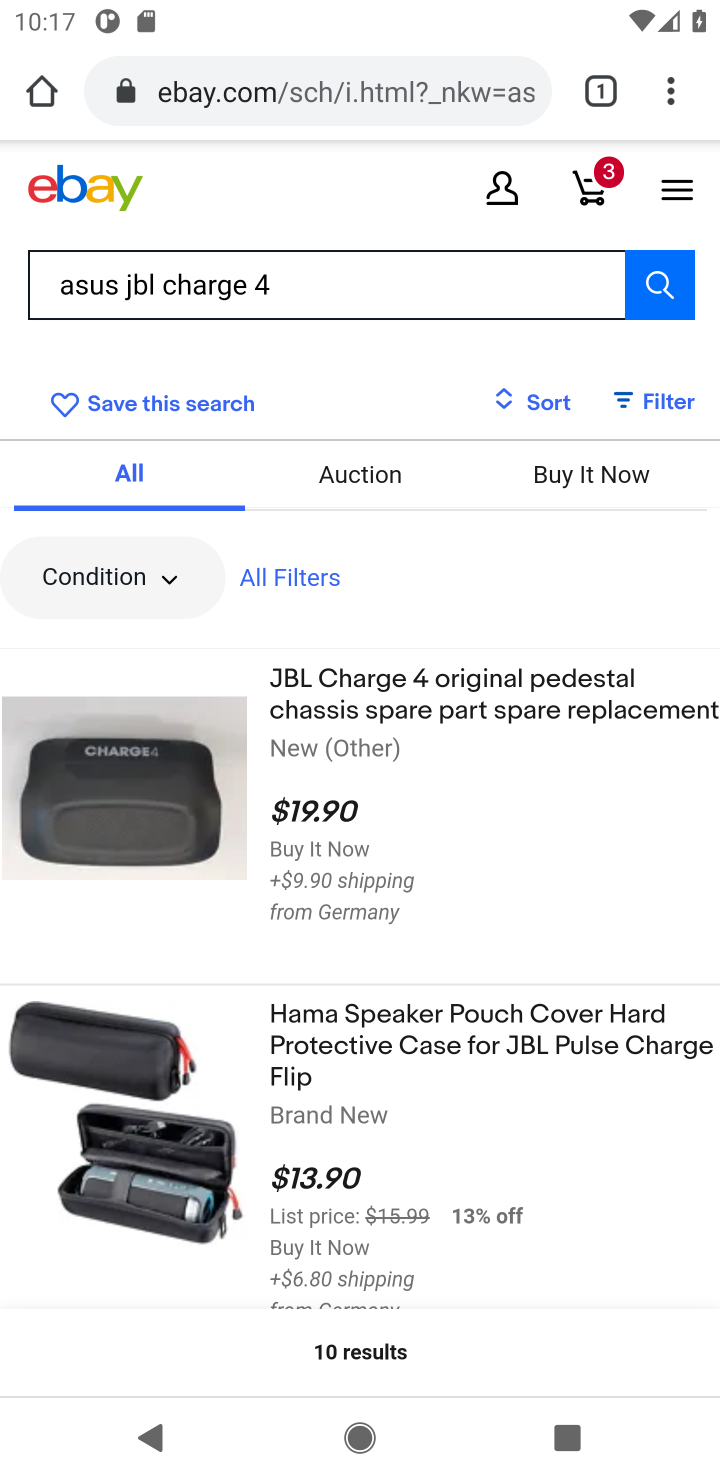
Step 28: click (128, 750)
Your task to perform on an android device: Add "jbl charge 4" to the cart on ebay.com, then select checkout. Image 29: 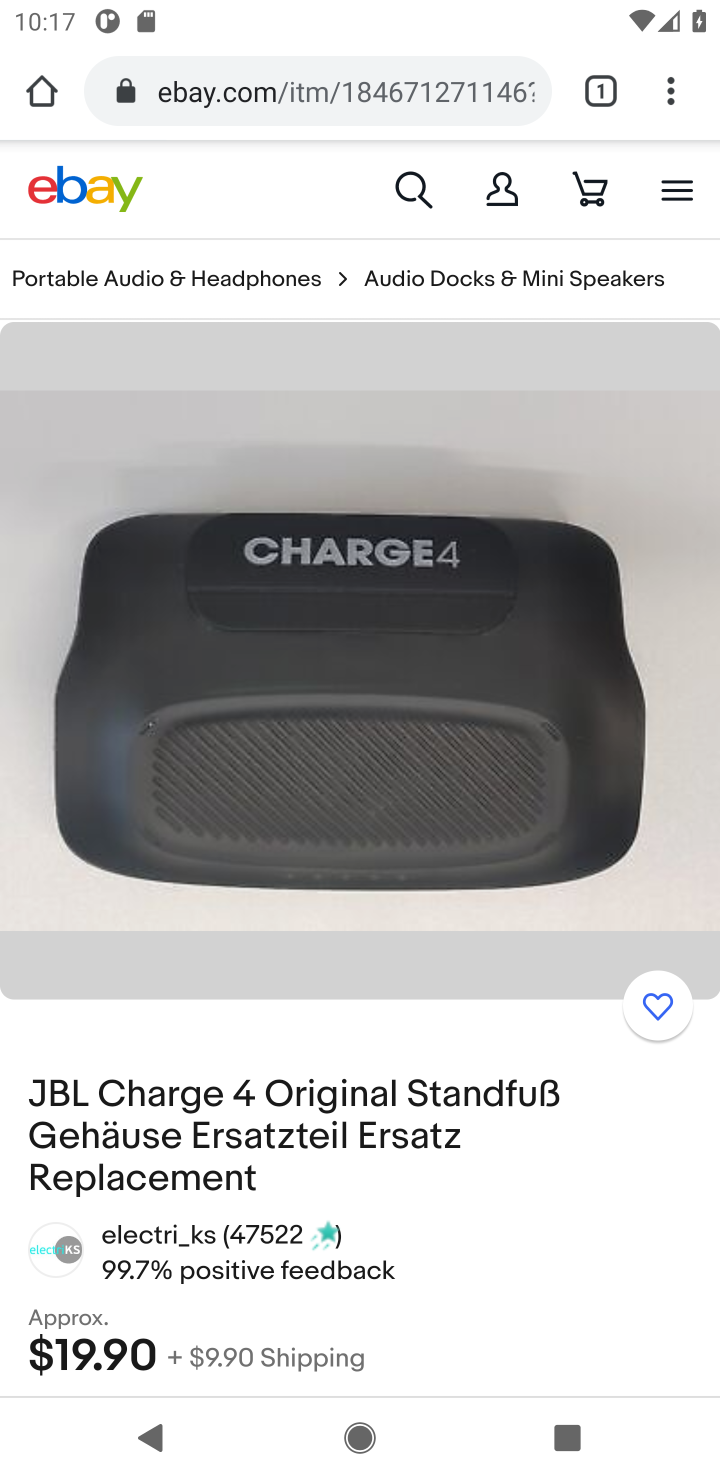
Step 29: drag from (444, 1153) to (493, 388)
Your task to perform on an android device: Add "jbl charge 4" to the cart on ebay.com, then select checkout. Image 30: 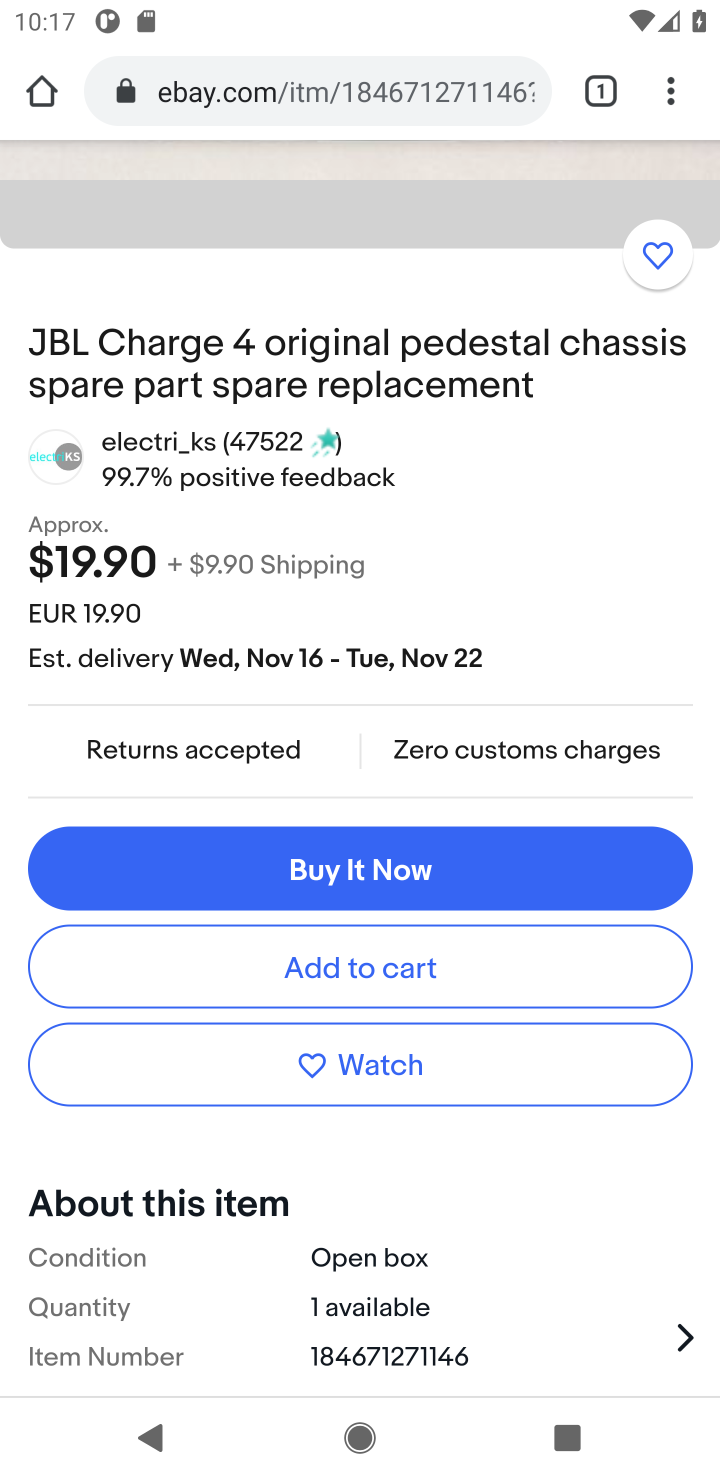
Step 30: click (335, 978)
Your task to perform on an android device: Add "jbl charge 4" to the cart on ebay.com, then select checkout. Image 31: 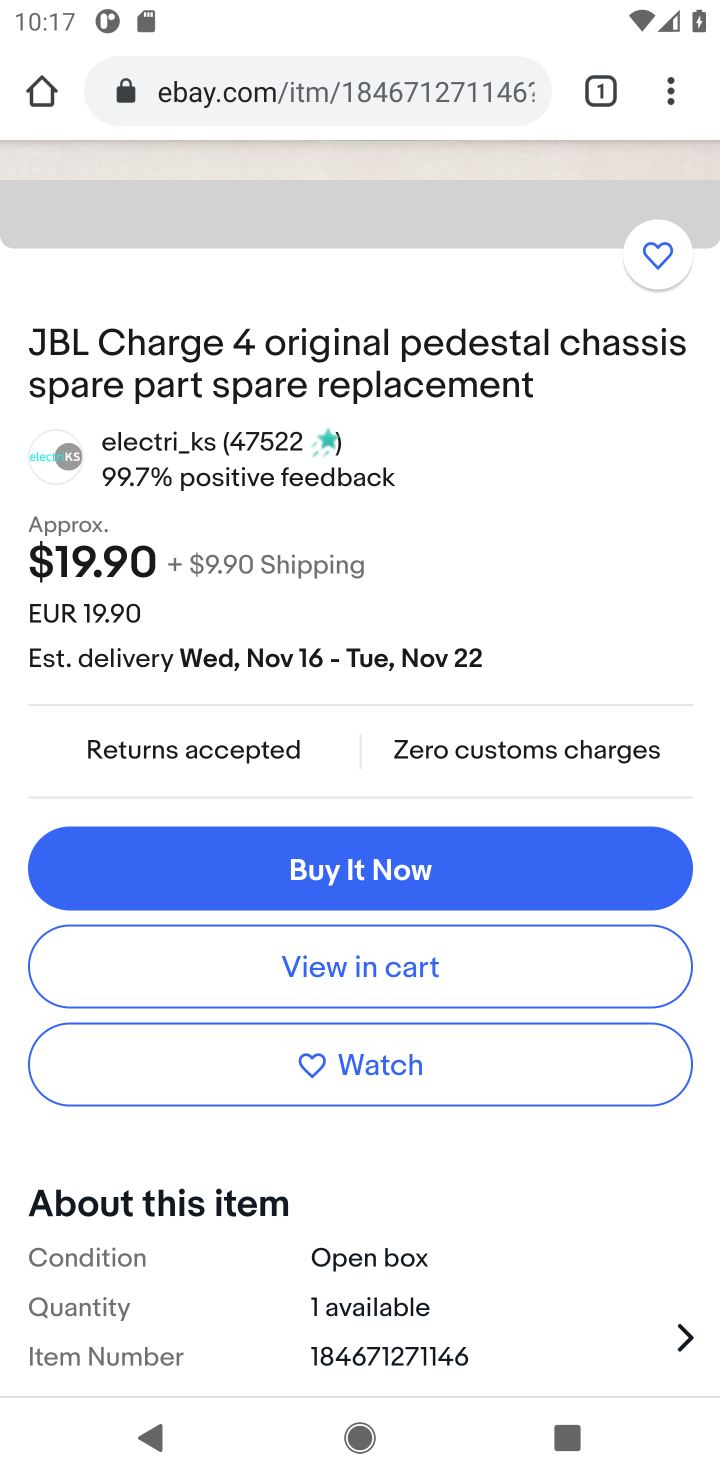
Step 31: click (335, 978)
Your task to perform on an android device: Add "jbl charge 4" to the cart on ebay.com, then select checkout. Image 32: 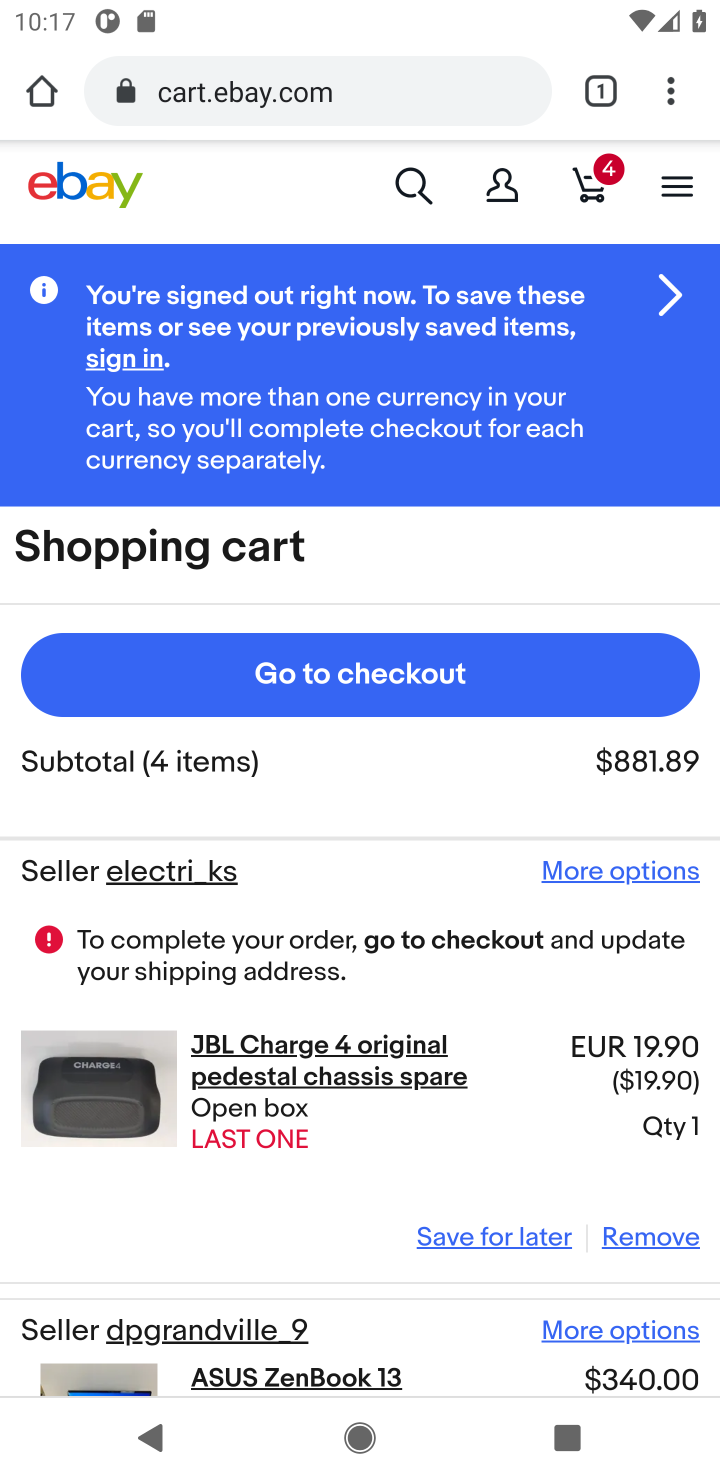
Step 32: click (427, 676)
Your task to perform on an android device: Add "jbl charge 4" to the cart on ebay.com, then select checkout. Image 33: 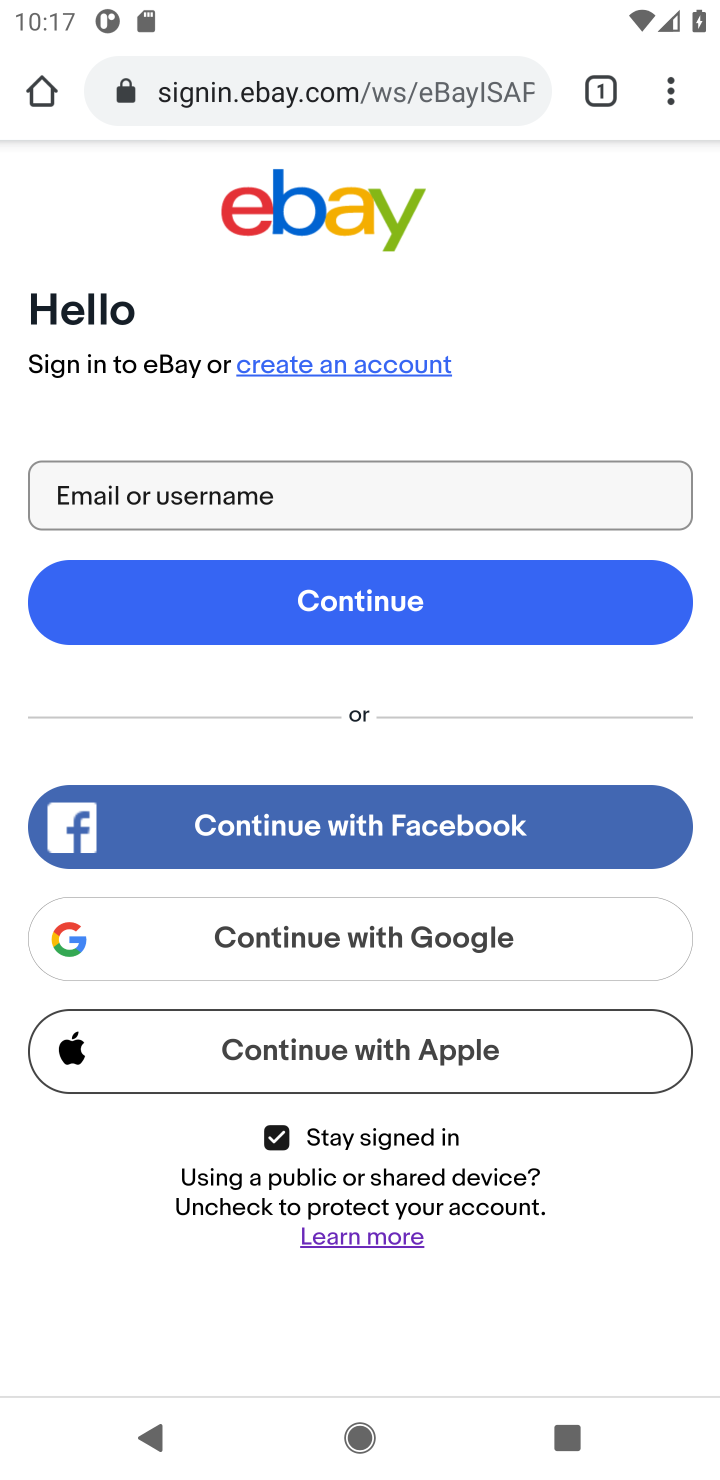
Step 33: task complete